Your task to perform on an android device: What's the weather like in Mumbai? Image 0: 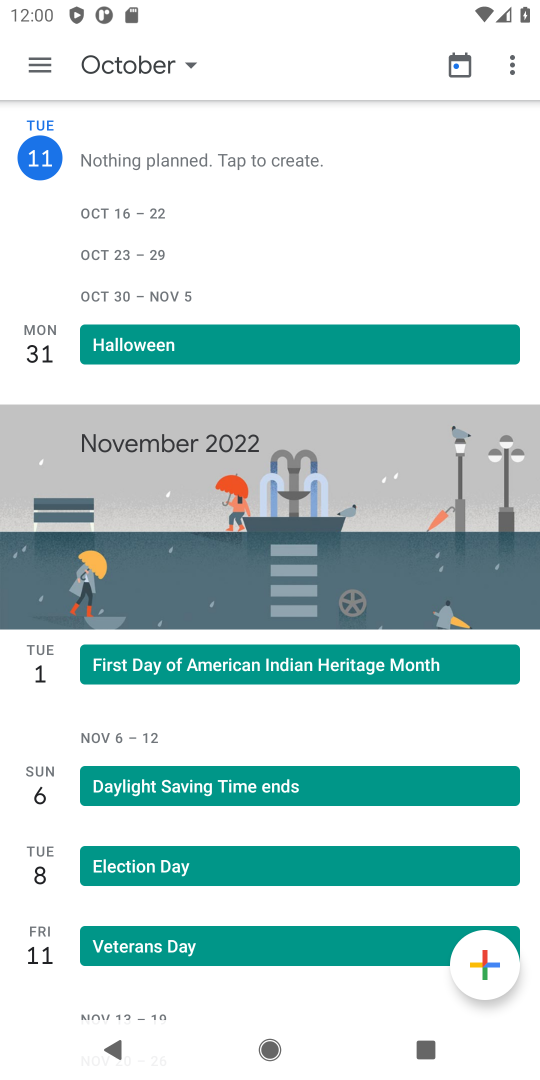
Step 0: press home button
Your task to perform on an android device: What's the weather like in Mumbai? Image 1: 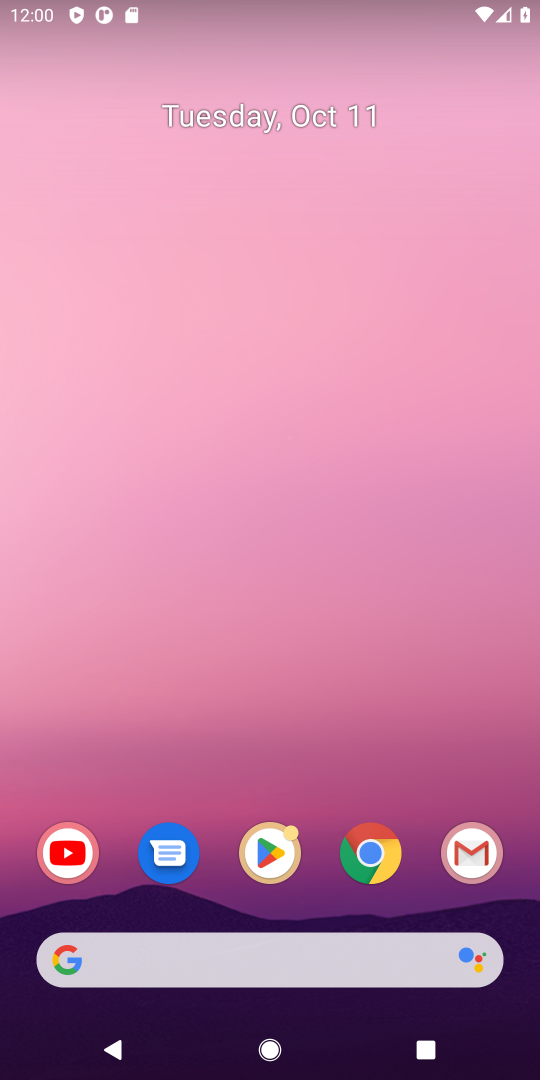
Step 1: drag from (287, 917) to (445, 136)
Your task to perform on an android device: What's the weather like in Mumbai? Image 2: 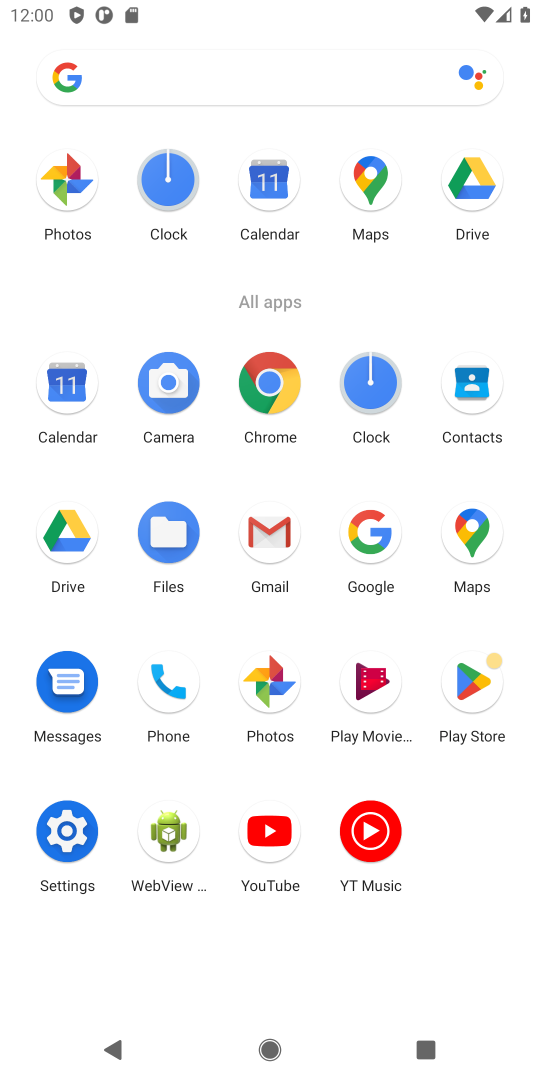
Step 2: click (248, 398)
Your task to perform on an android device: What's the weather like in Mumbai? Image 3: 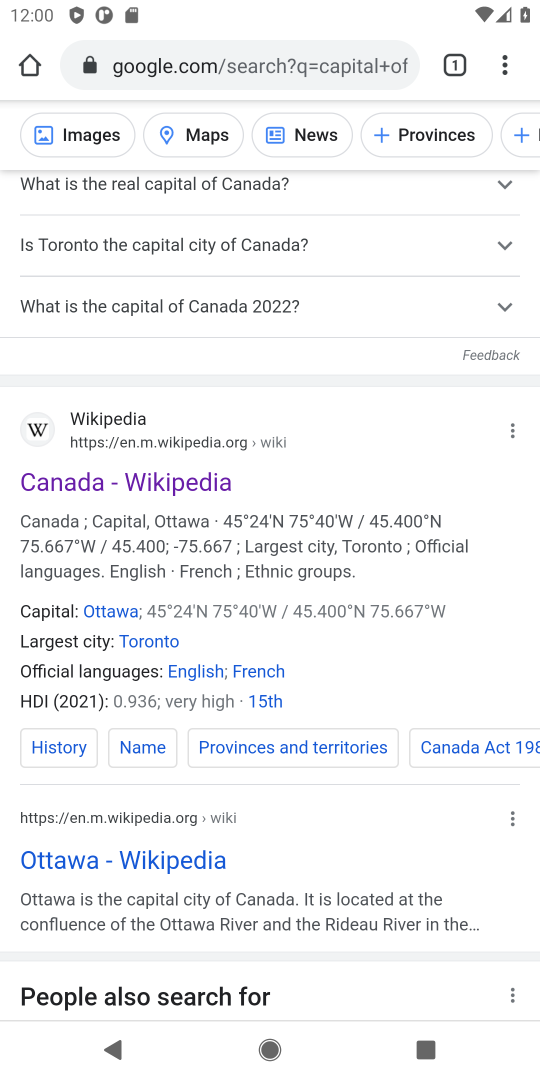
Step 3: click (256, 64)
Your task to perform on an android device: What's the weather like in Mumbai? Image 4: 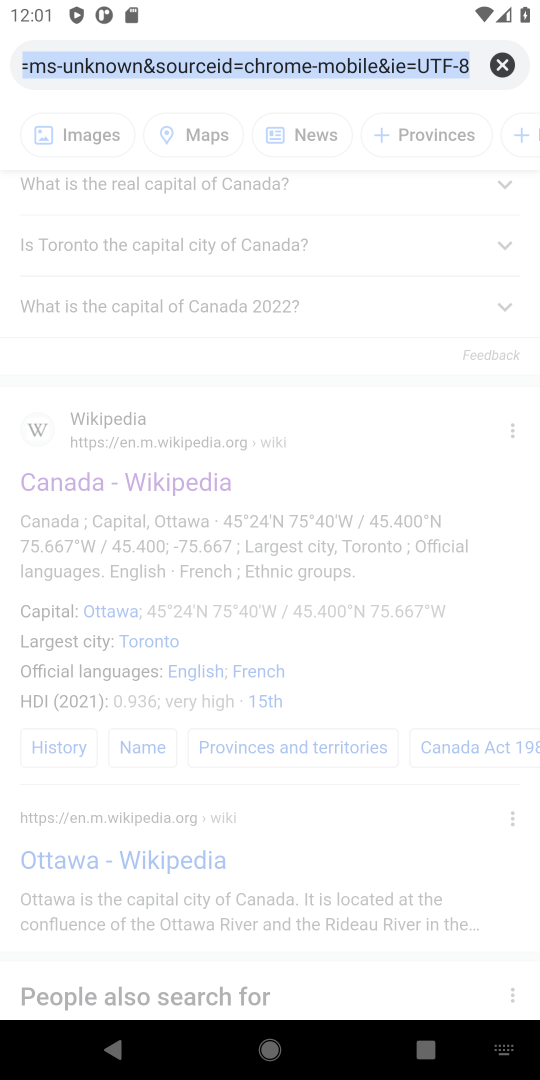
Step 4: type "What's the weather like in Mumbai?"
Your task to perform on an android device: What's the weather like in Mumbai? Image 5: 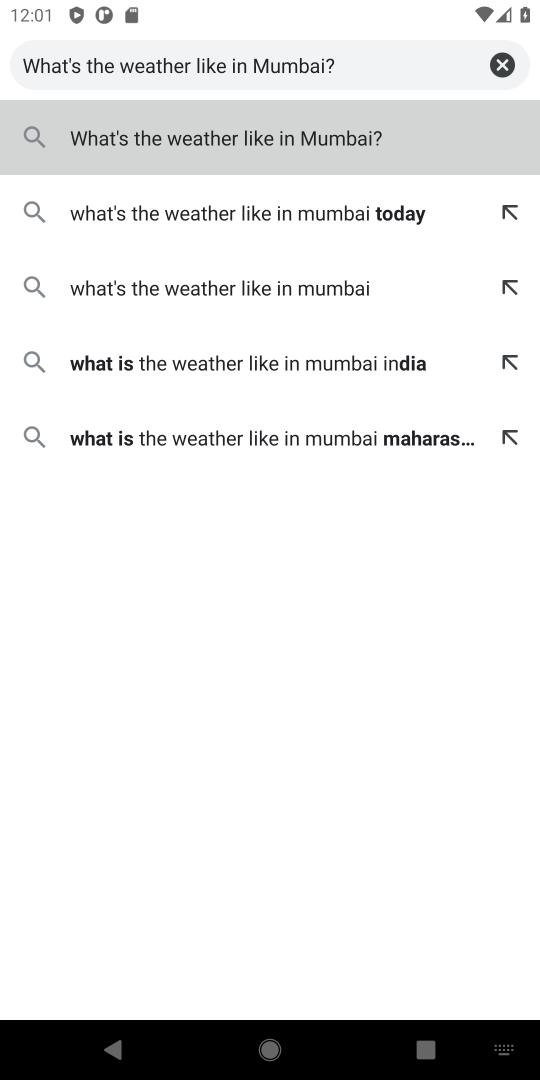
Step 5: type ""
Your task to perform on an android device: What's the weather like in Mumbai? Image 6: 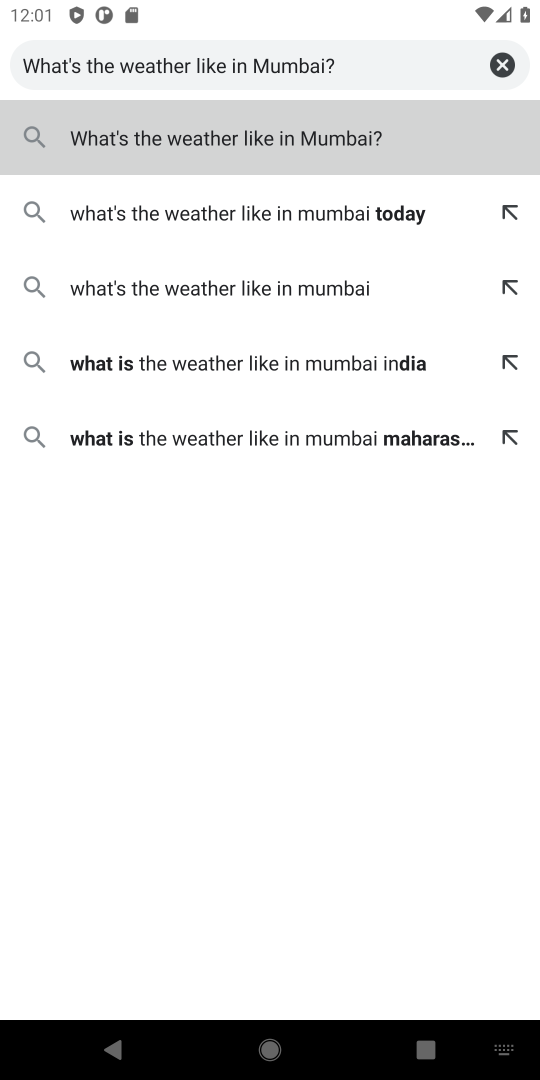
Step 6: press enter
Your task to perform on an android device: What's the weather like in Mumbai? Image 7: 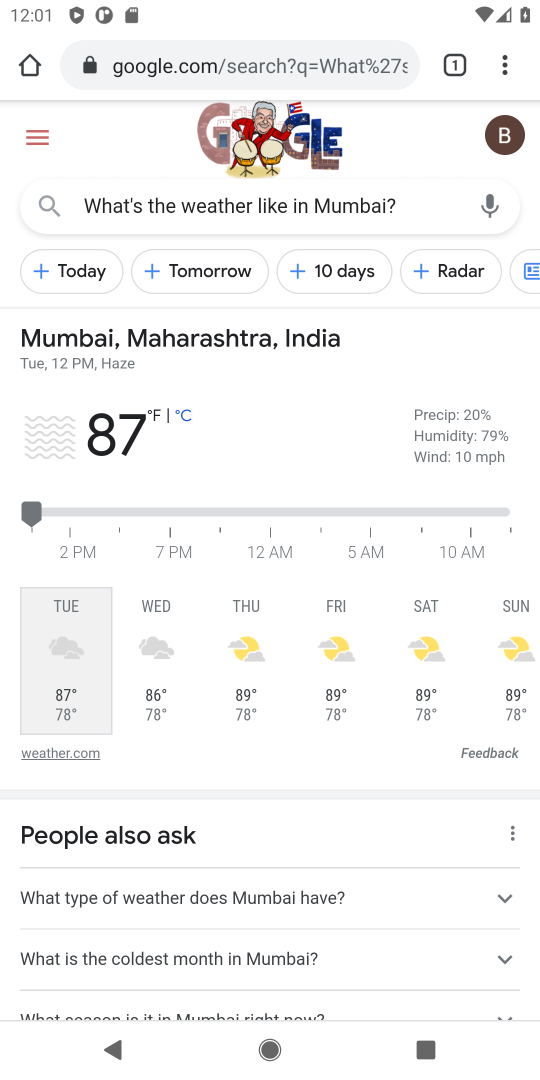
Step 7: click (32, 522)
Your task to perform on an android device: What's the weather like in Mumbai? Image 8: 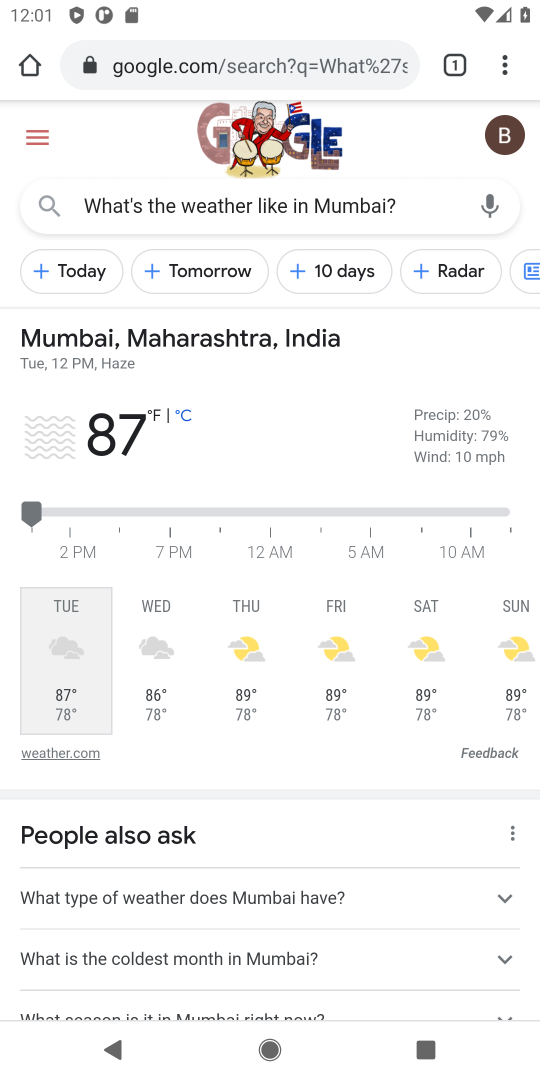
Step 8: click (179, 672)
Your task to perform on an android device: What's the weather like in Mumbai? Image 9: 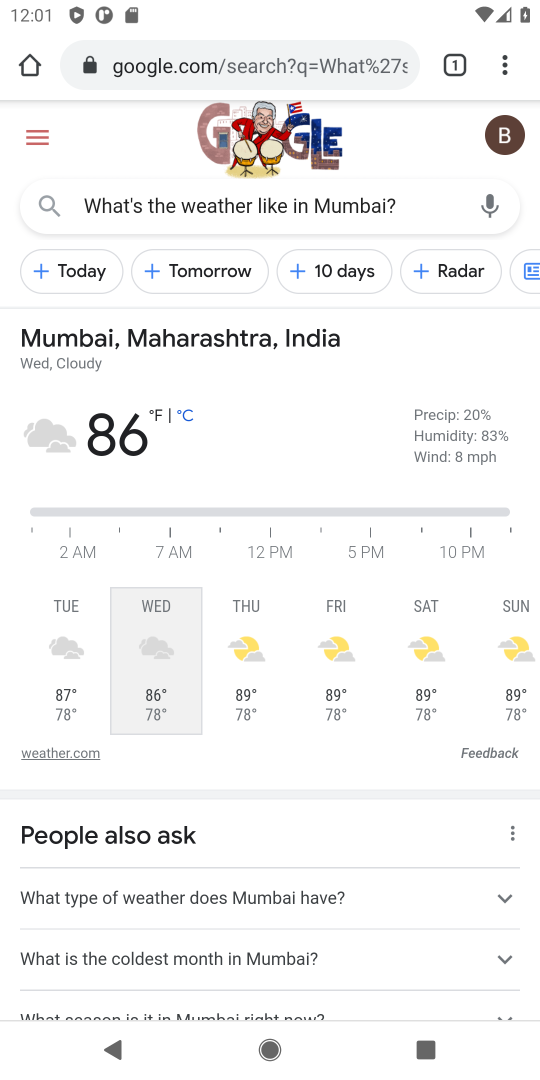
Step 9: click (248, 632)
Your task to perform on an android device: What's the weather like in Mumbai? Image 10: 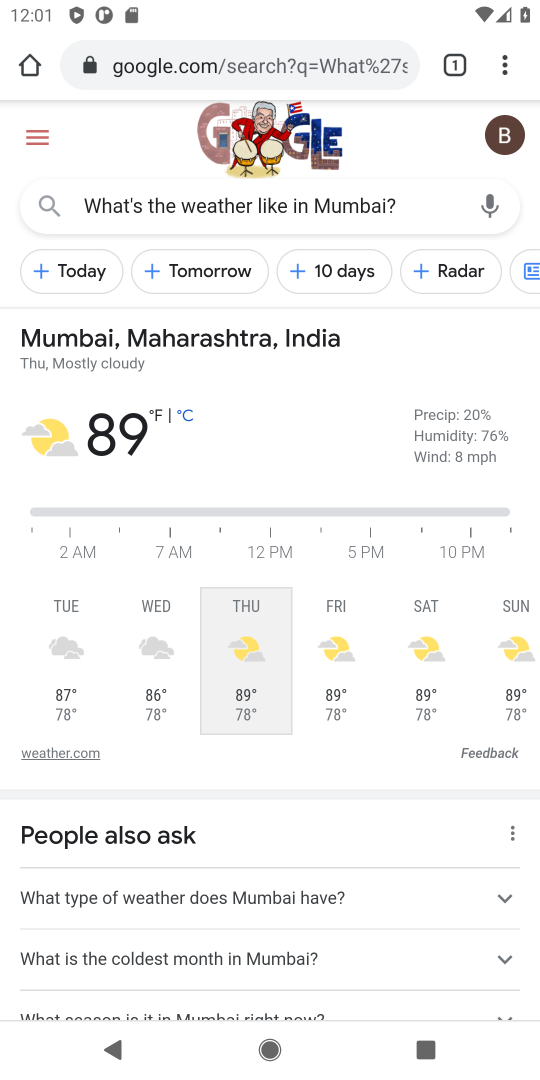
Step 10: click (79, 655)
Your task to perform on an android device: What's the weather like in Mumbai? Image 11: 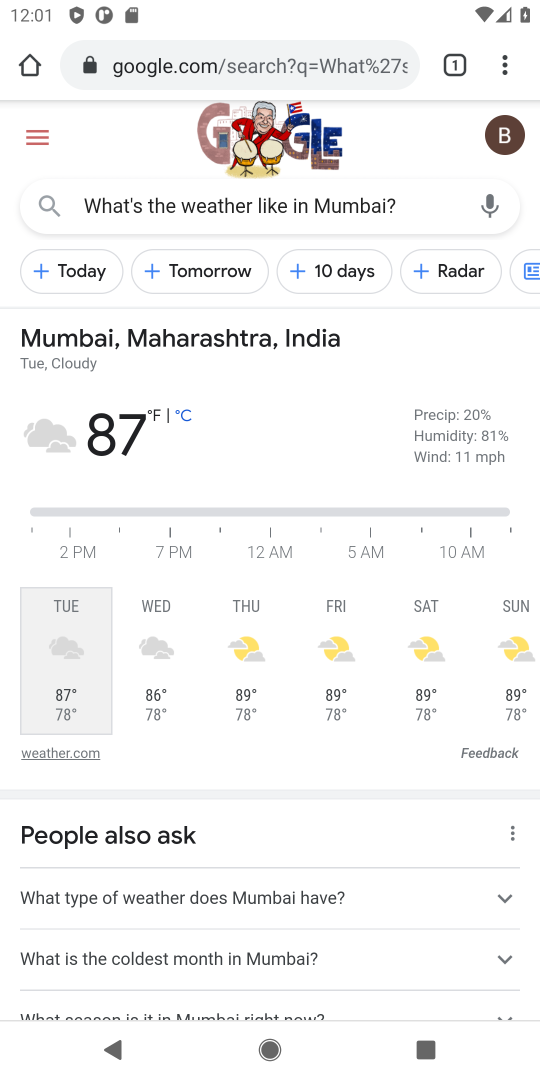
Step 11: drag from (148, 908) to (215, 467)
Your task to perform on an android device: What's the weather like in Mumbai? Image 12: 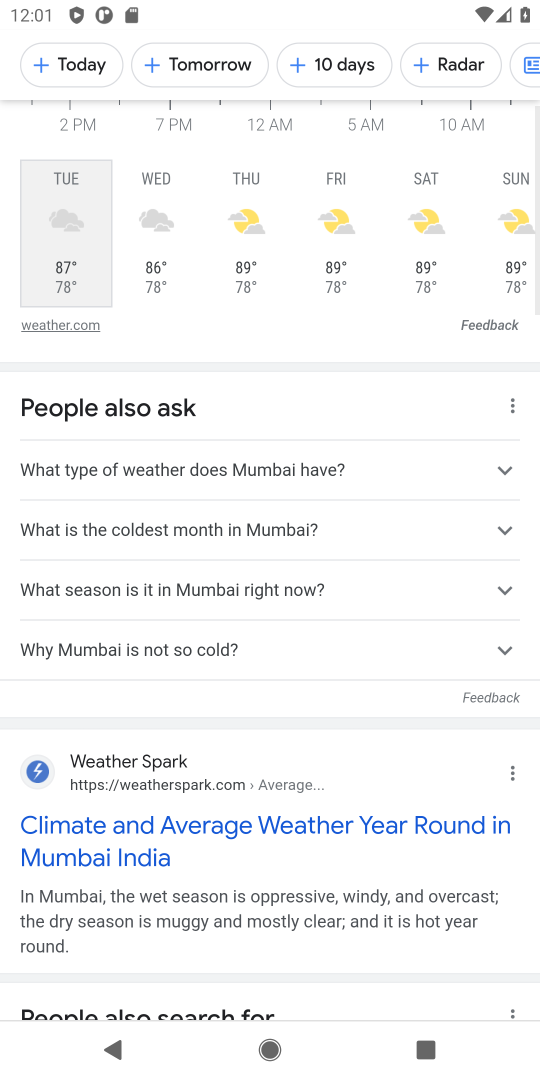
Step 12: drag from (353, 867) to (367, 435)
Your task to perform on an android device: What's the weather like in Mumbai? Image 13: 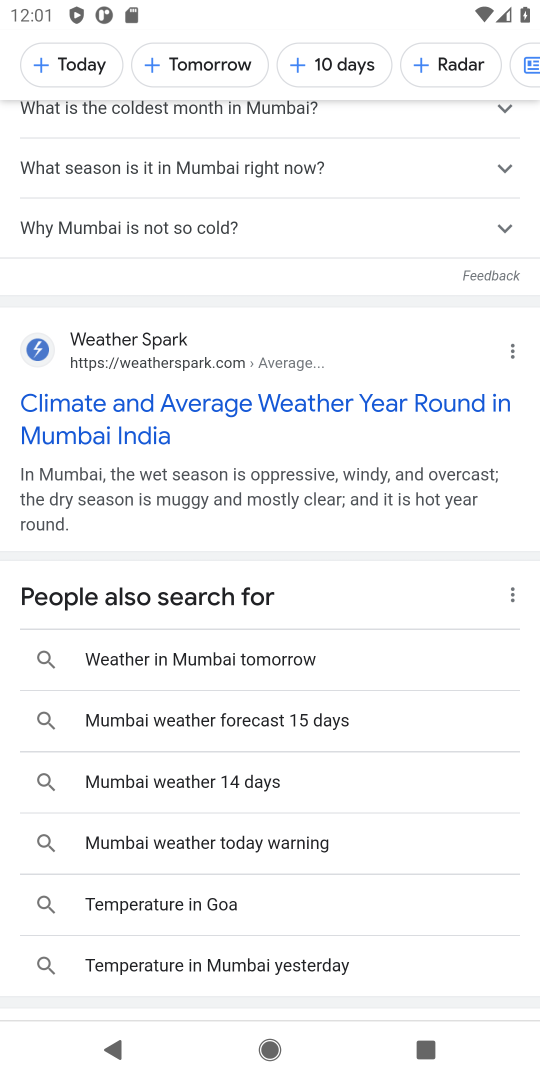
Step 13: drag from (324, 609) to (365, 282)
Your task to perform on an android device: What's the weather like in Mumbai? Image 14: 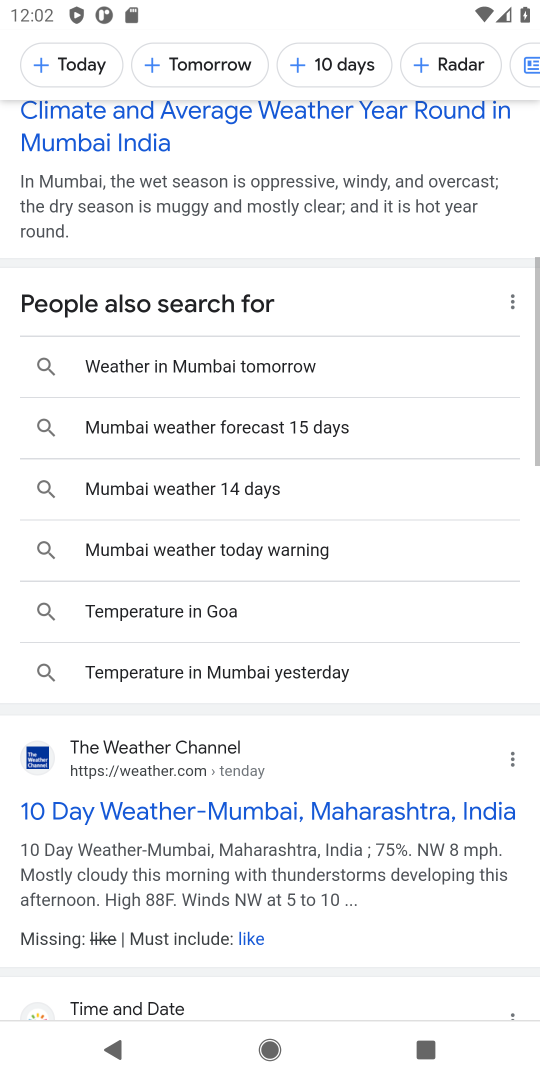
Step 14: drag from (401, 601) to (391, 346)
Your task to perform on an android device: What's the weather like in Mumbai? Image 15: 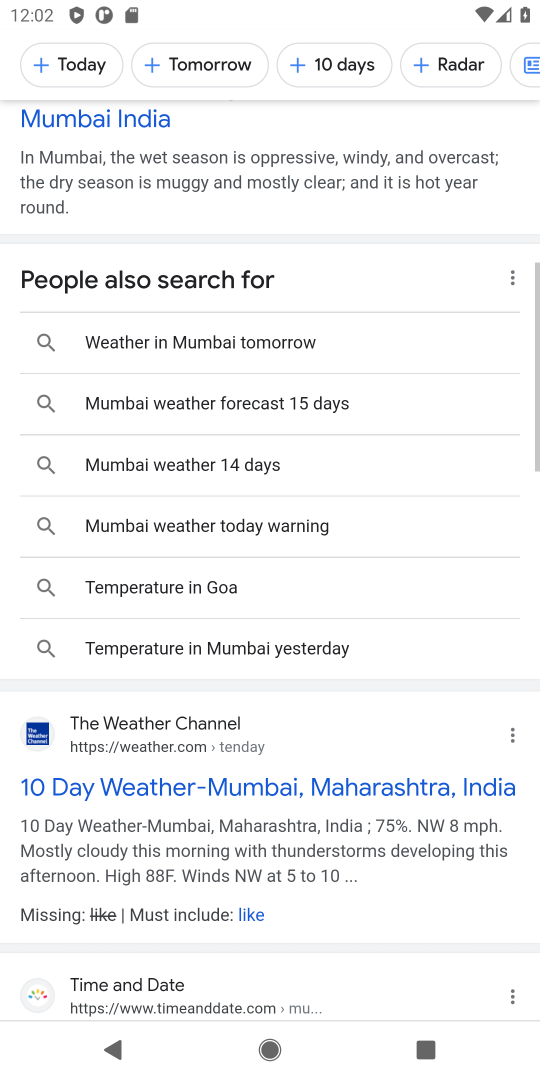
Step 15: drag from (351, 909) to (362, 419)
Your task to perform on an android device: What's the weather like in Mumbai? Image 16: 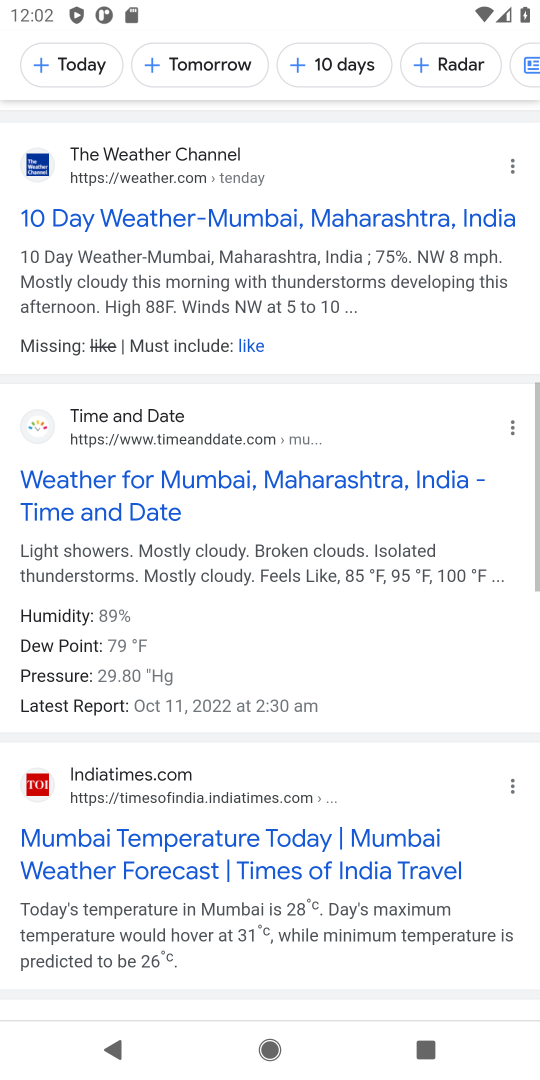
Step 16: drag from (326, 862) to (337, 439)
Your task to perform on an android device: What's the weather like in Mumbai? Image 17: 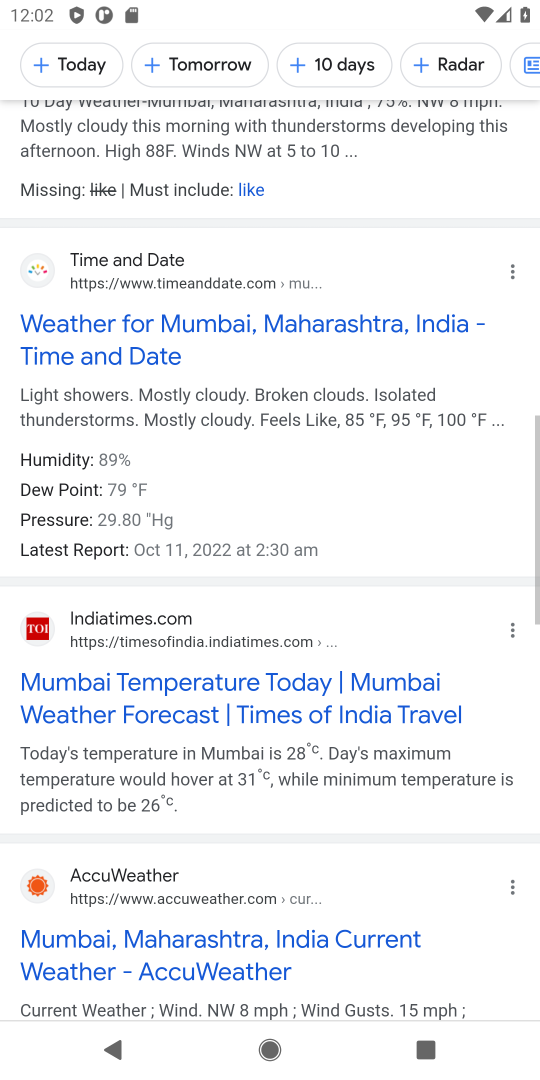
Step 17: drag from (272, 713) to (293, 510)
Your task to perform on an android device: What's the weather like in Mumbai? Image 18: 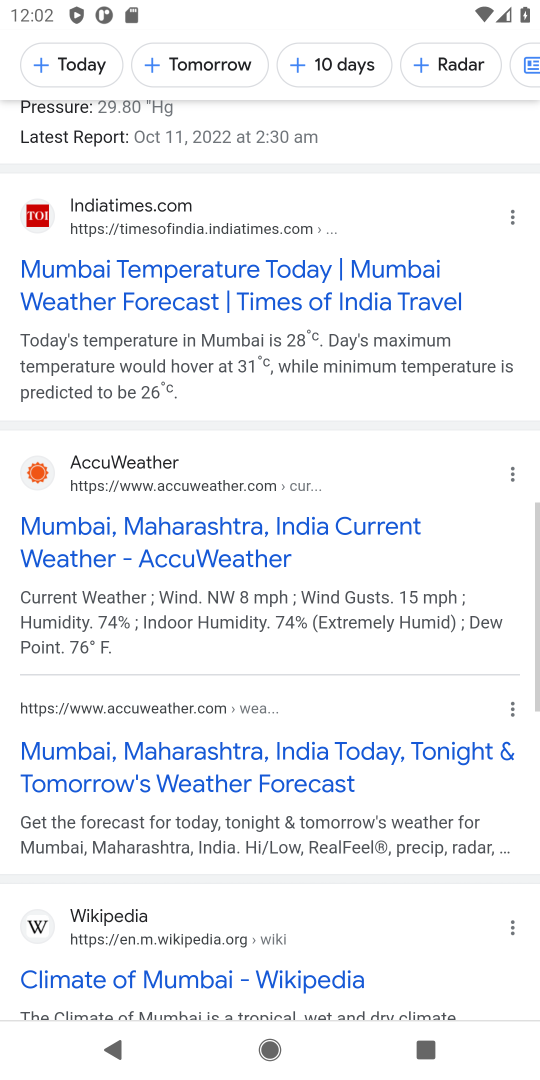
Step 18: drag from (317, 843) to (326, 399)
Your task to perform on an android device: What's the weather like in Mumbai? Image 19: 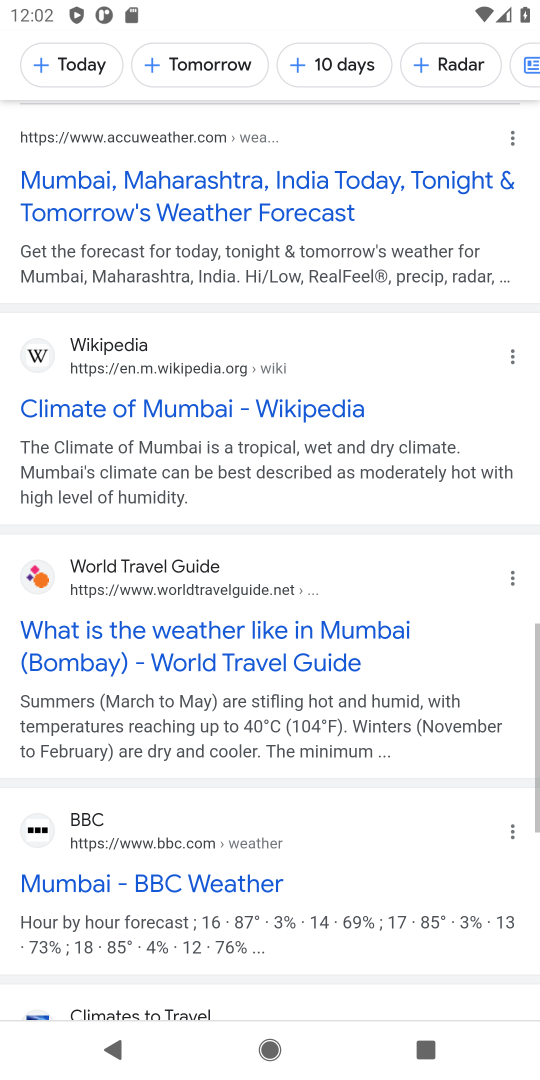
Step 19: drag from (319, 885) to (295, 367)
Your task to perform on an android device: What's the weather like in Mumbai? Image 20: 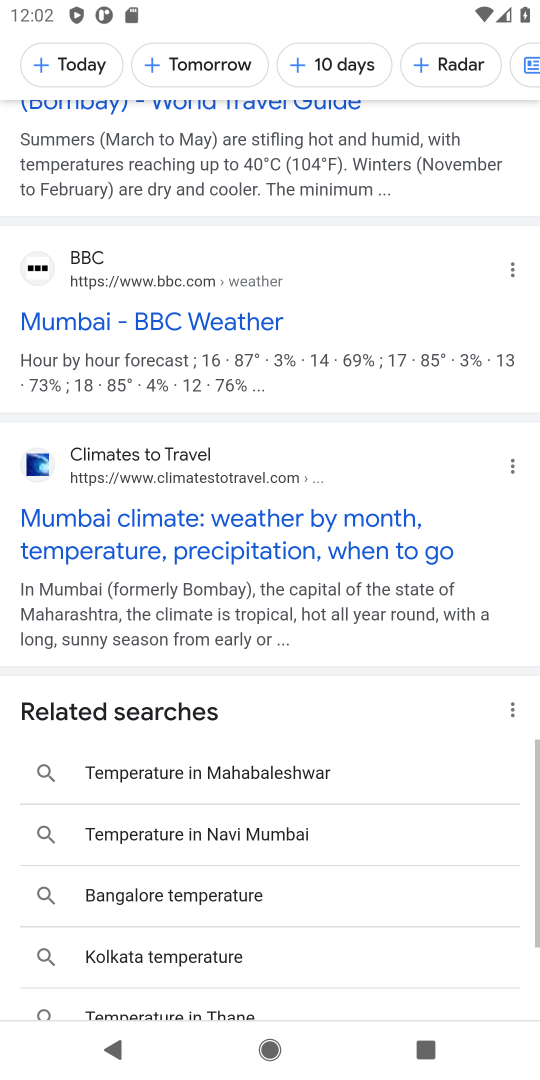
Step 20: click (312, 293)
Your task to perform on an android device: What's the weather like in Mumbai? Image 21: 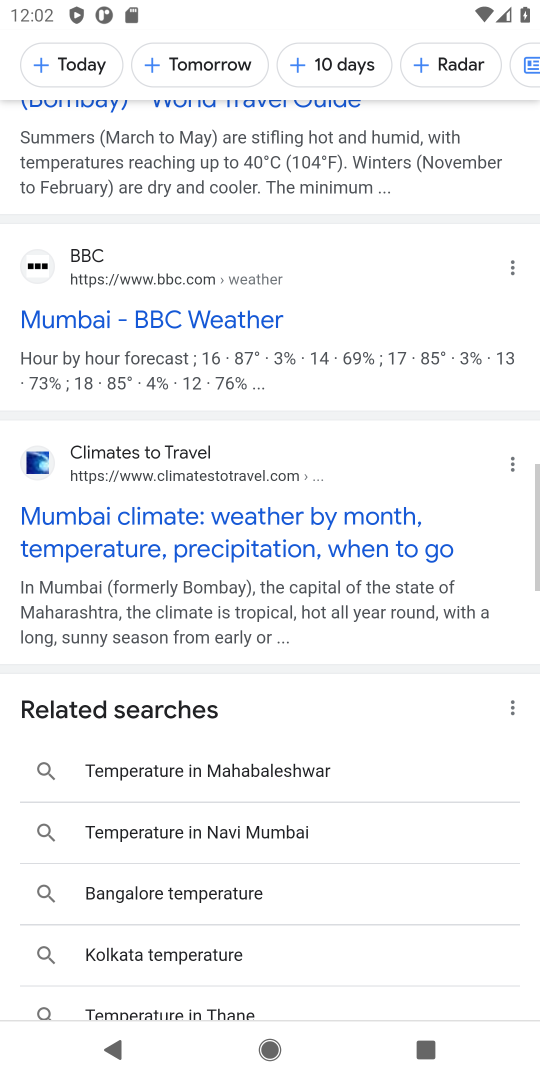
Step 21: drag from (287, 568) to (281, 337)
Your task to perform on an android device: What's the weather like in Mumbai? Image 22: 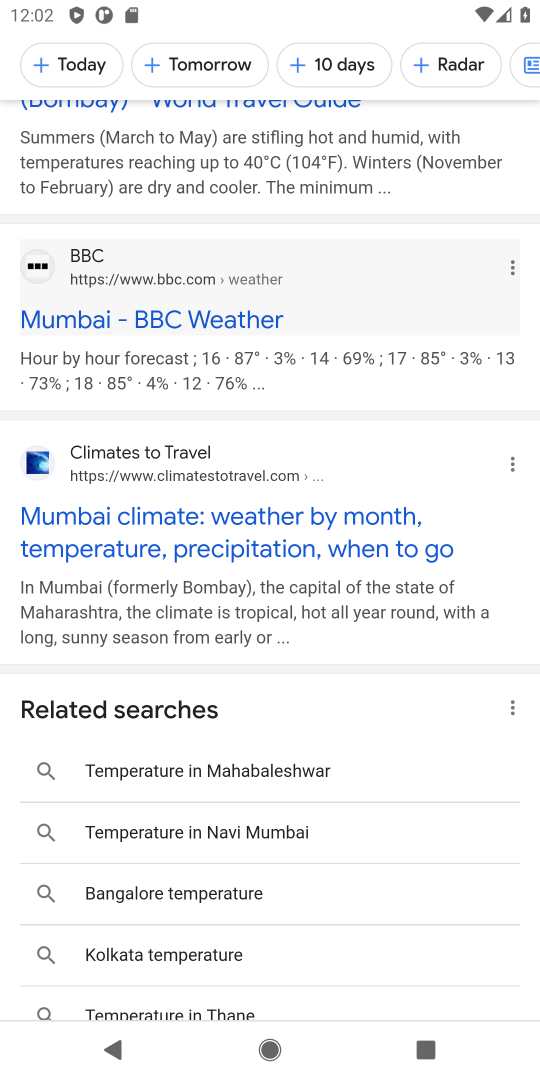
Step 22: drag from (304, 805) to (341, 284)
Your task to perform on an android device: What's the weather like in Mumbai? Image 23: 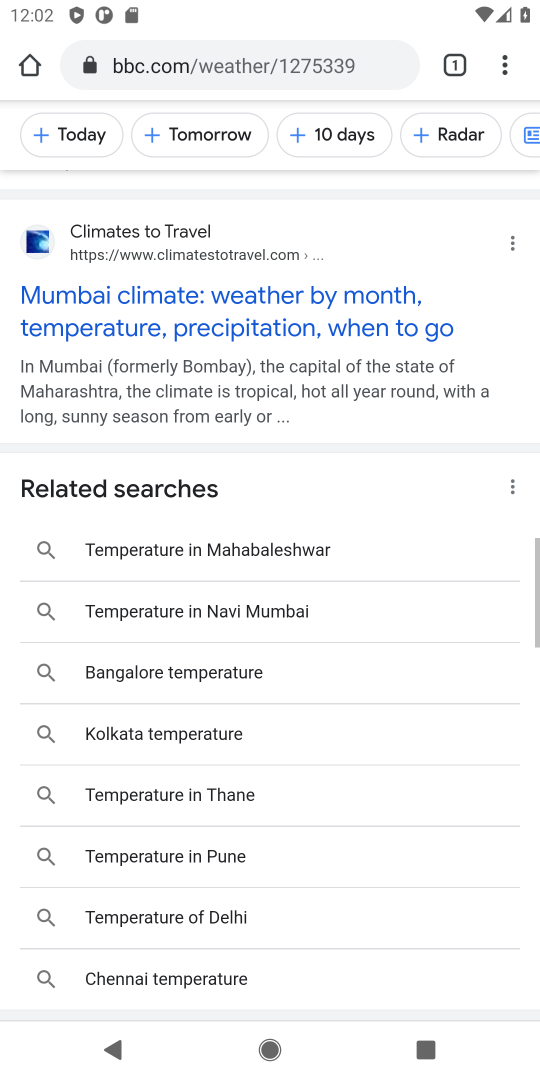
Step 23: drag from (267, 473) to (263, 405)
Your task to perform on an android device: What's the weather like in Mumbai? Image 24: 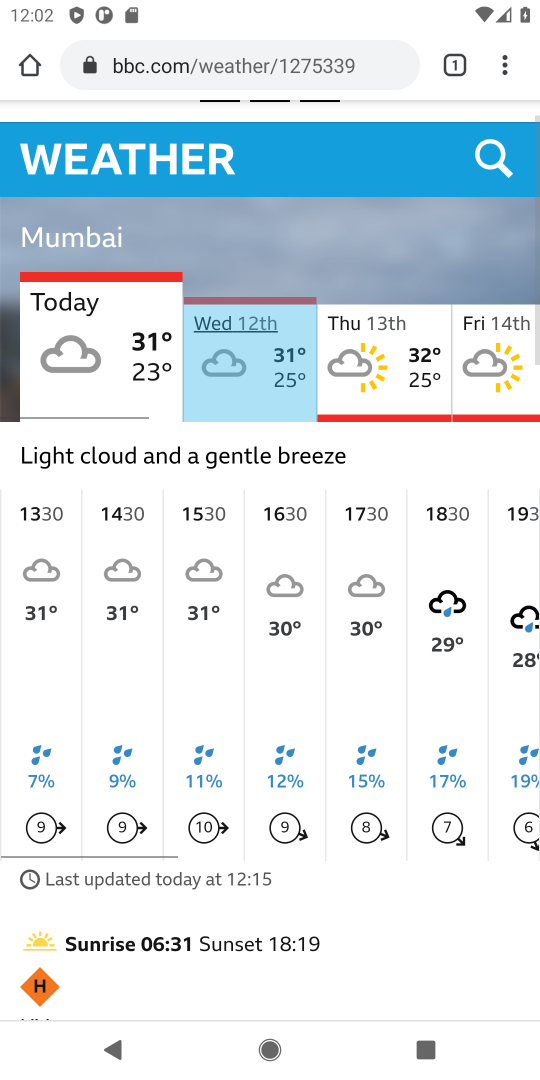
Step 24: click (238, 302)
Your task to perform on an android device: What's the weather like in Mumbai? Image 25: 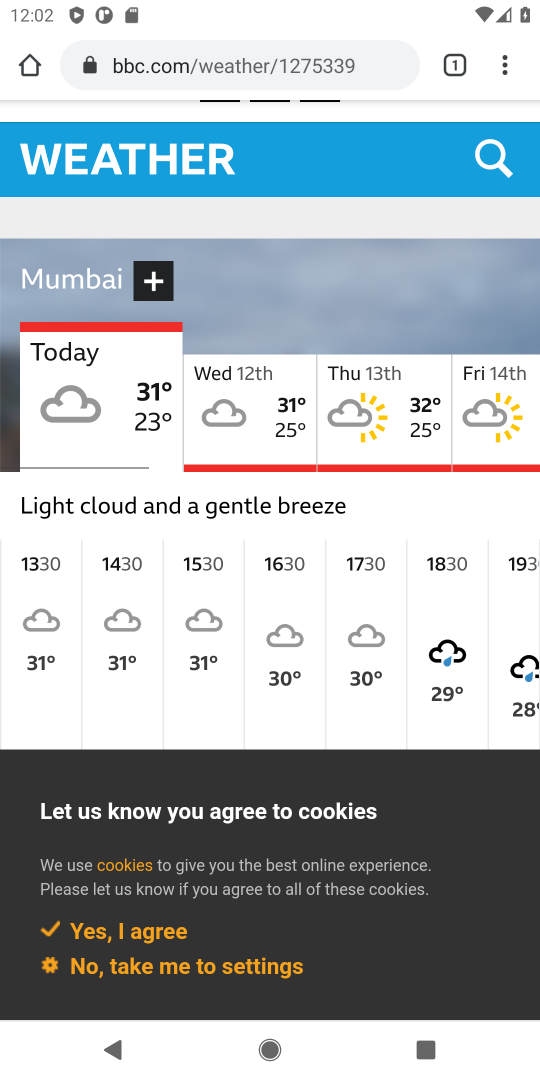
Step 25: drag from (337, 711) to (351, 494)
Your task to perform on an android device: What's the weather like in Mumbai? Image 26: 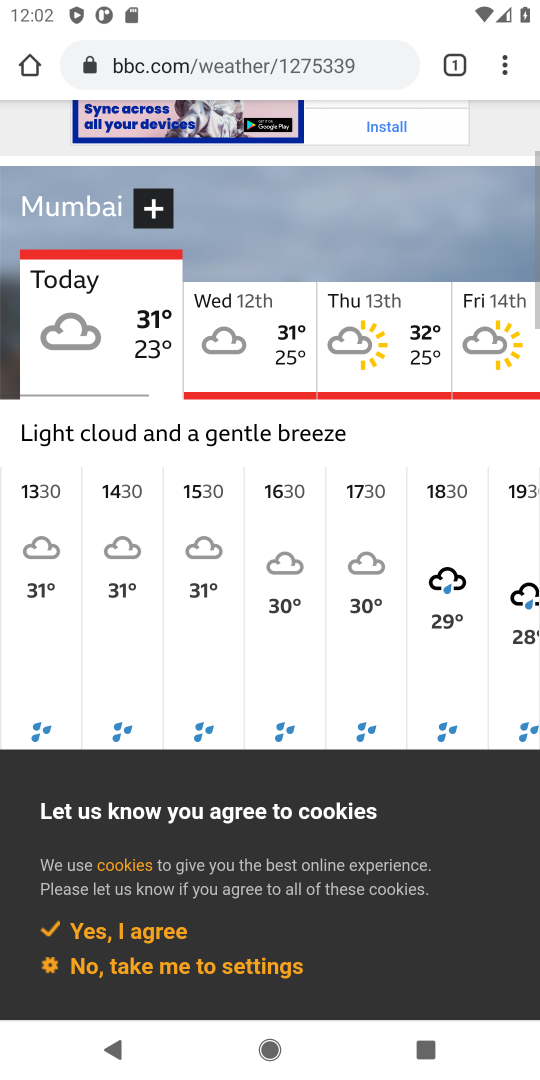
Step 26: click (153, 962)
Your task to perform on an android device: What's the weather like in Mumbai? Image 27: 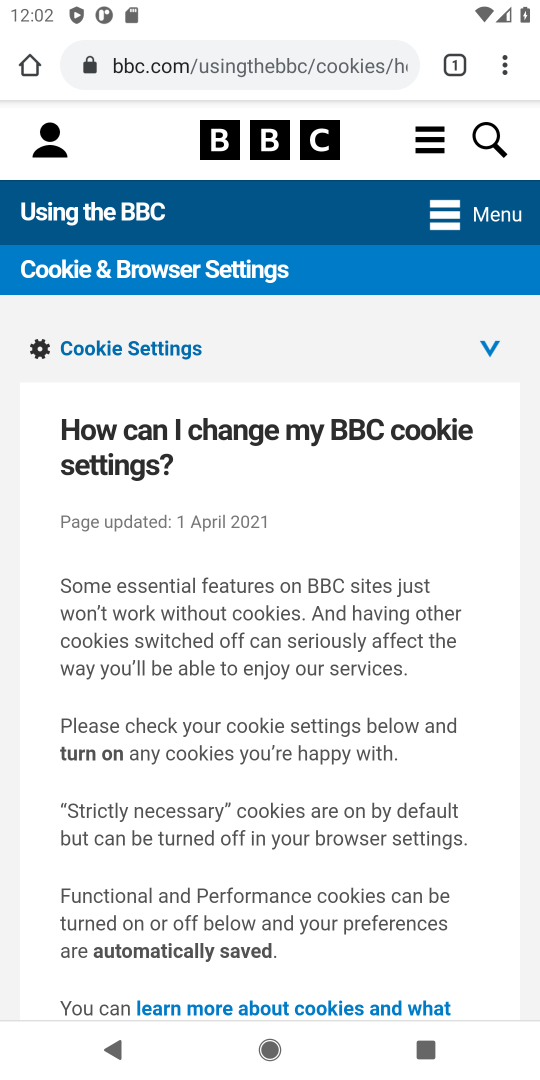
Step 27: drag from (283, 878) to (323, 437)
Your task to perform on an android device: What's the weather like in Mumbai? Image 28: 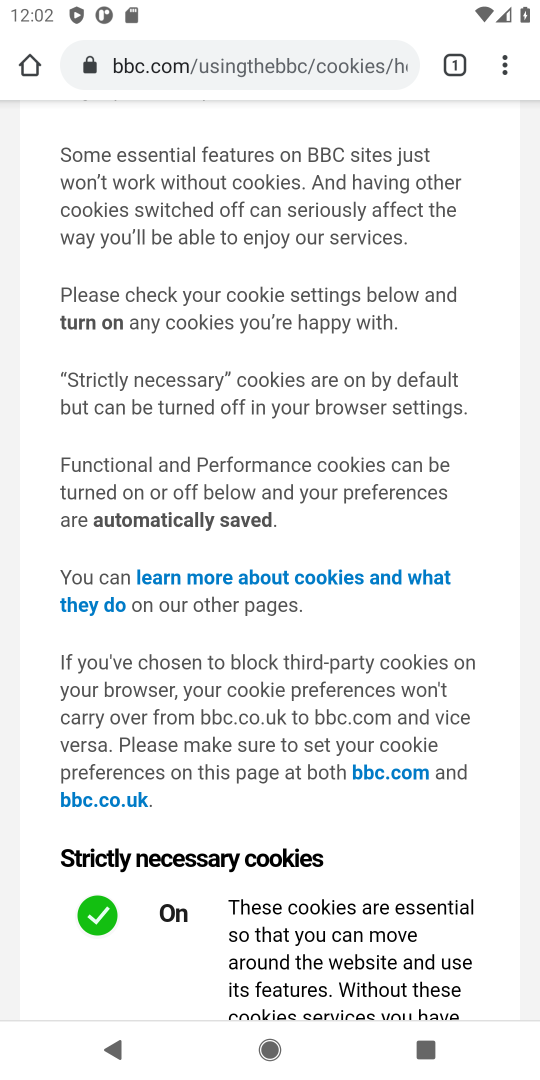
Step 28: drag from (430, 798) to (428, 579)
Your task to perform on an android device: What's the weather like in Mumbai? Image 29: 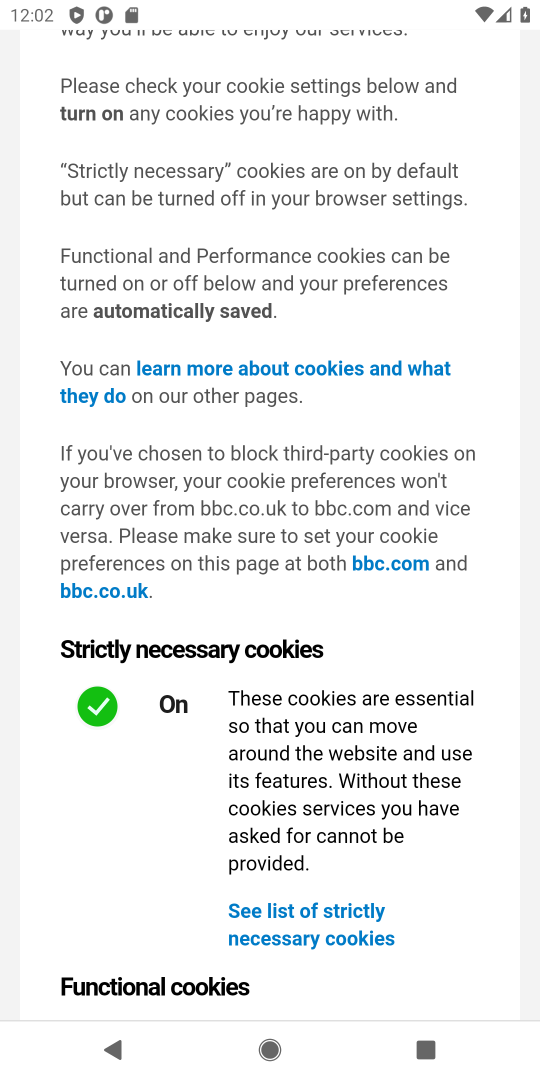
Step 29: drag from (402, 876) to (419, 455)
Your task to perform on an android device: What's the weather like in Mumbai? Image 30: 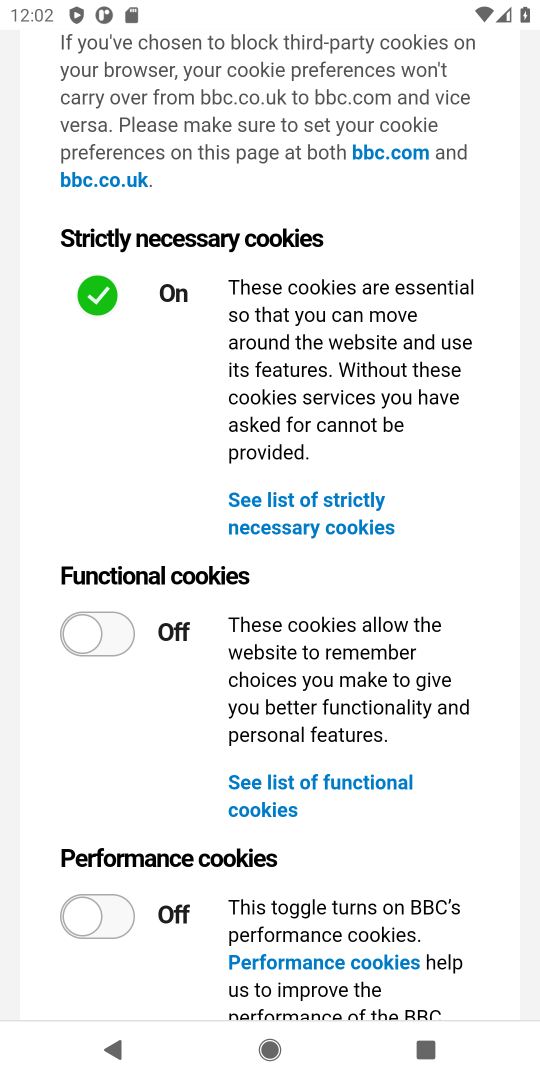
Step 30: drag from (400, 871) to (328, 391)
Your task to perform on an android device: What's the weather like in Mumbai? Image 31: 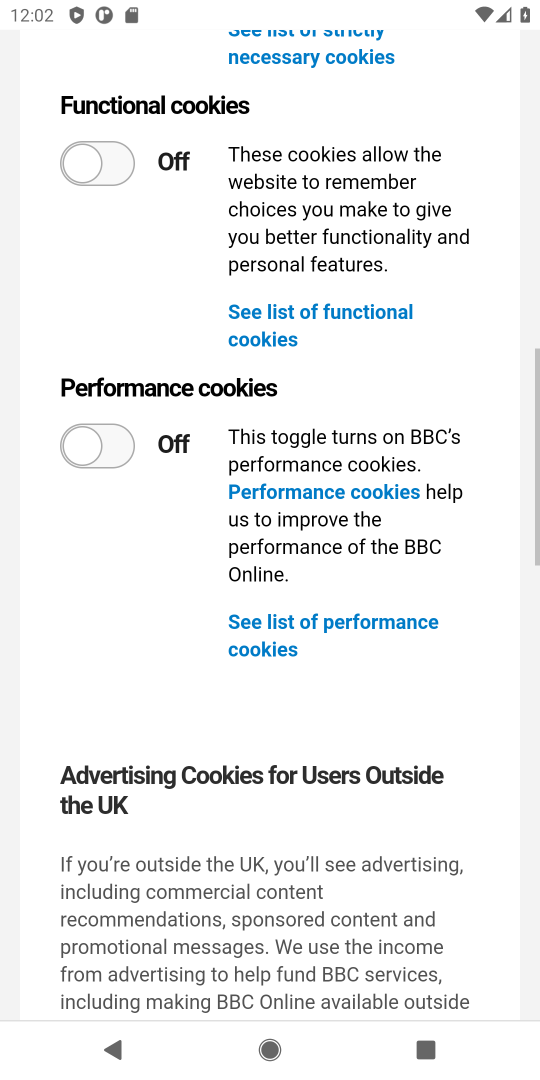
Step 31: drag from (382, 605) to (387, 406)
Your task to perform on an android device: What's the weather like in Mumbai? Image 32: 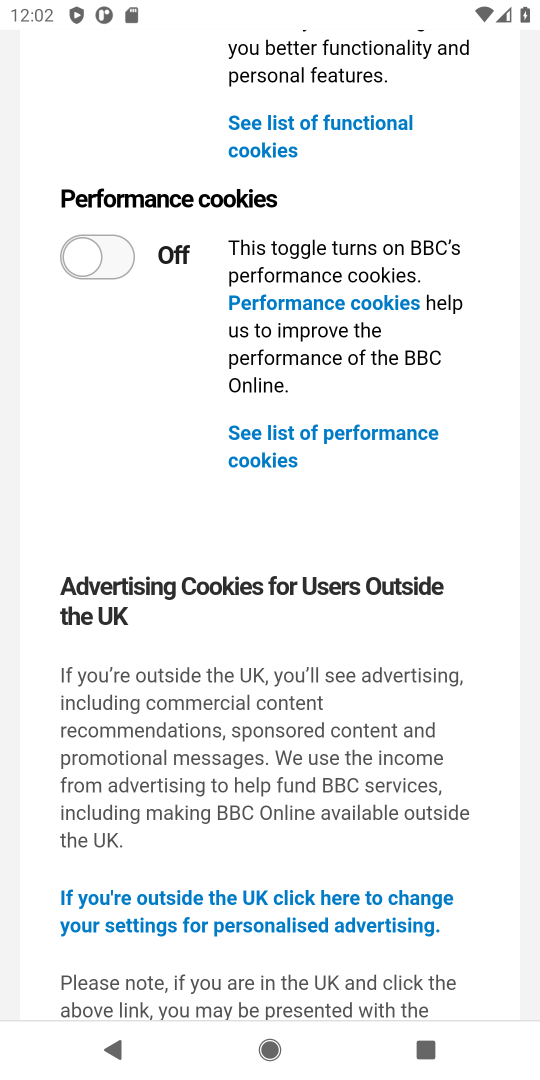
Step 32: drag from (388, 858) to (326, 39)
Your task to perform on an android device: What's the weather like in Mumbai? Image 33: 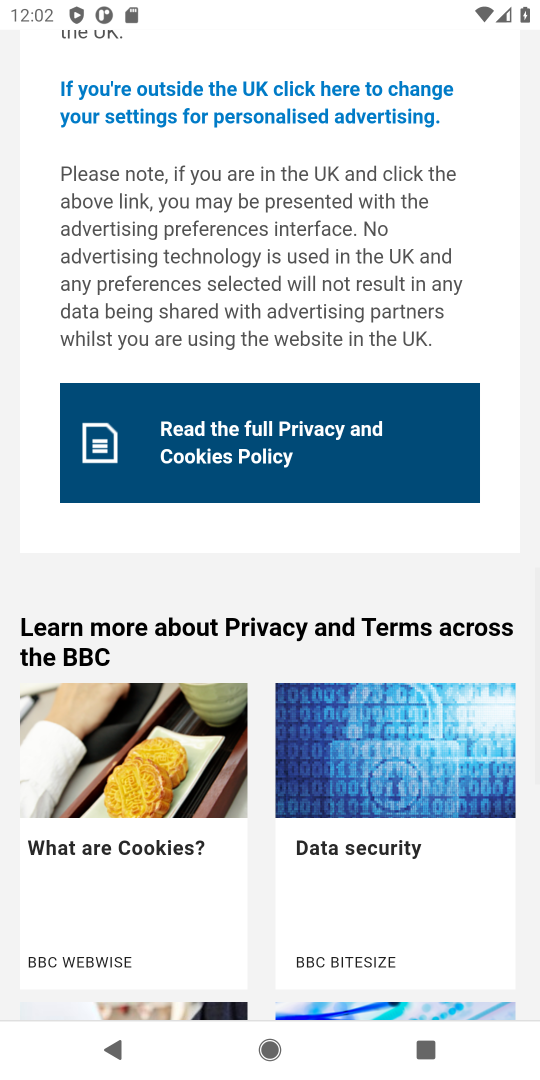
Step 33: drag from (403, 834) to (324, 290)
Your task to perform on an android device: What's the weather like in Mumbai? Image 34: 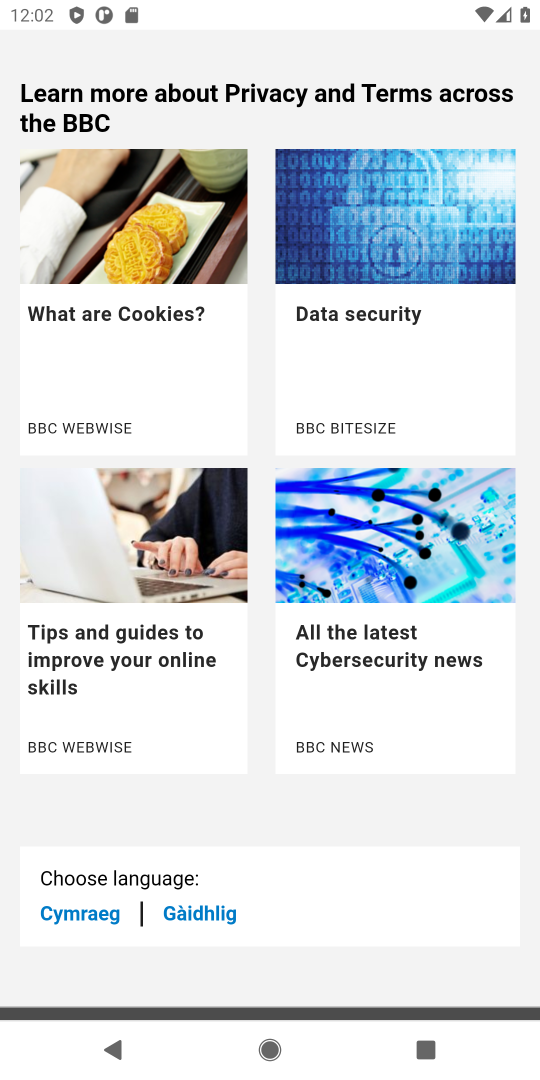
Step 34: press back button
Your task to perform on an android device: What's the weather like in Mumbai? Image 35: 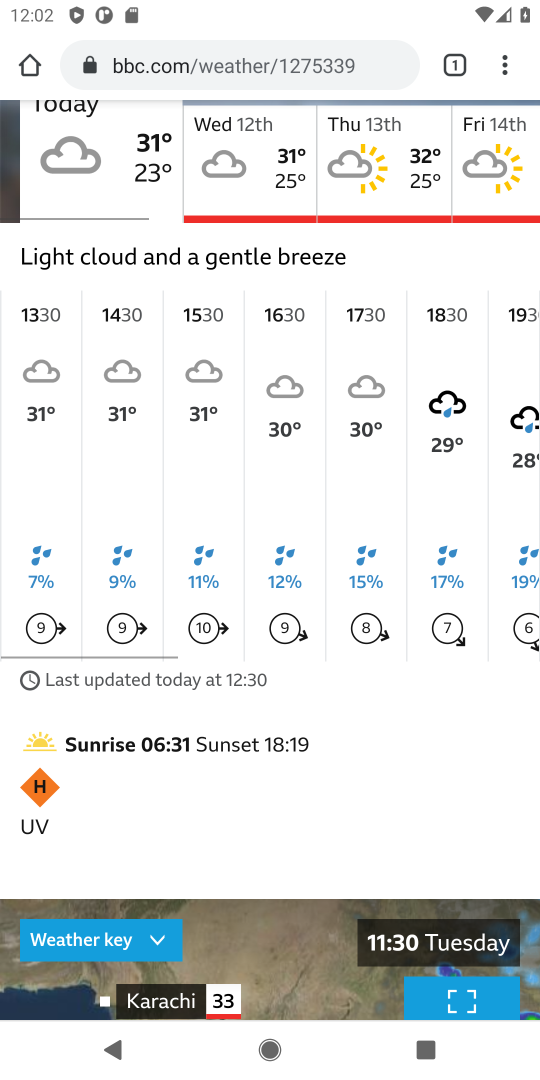
Step 35: click (356, 202)
Your task to perform on an android device: What's the weather like in Mumbai? Image 36: 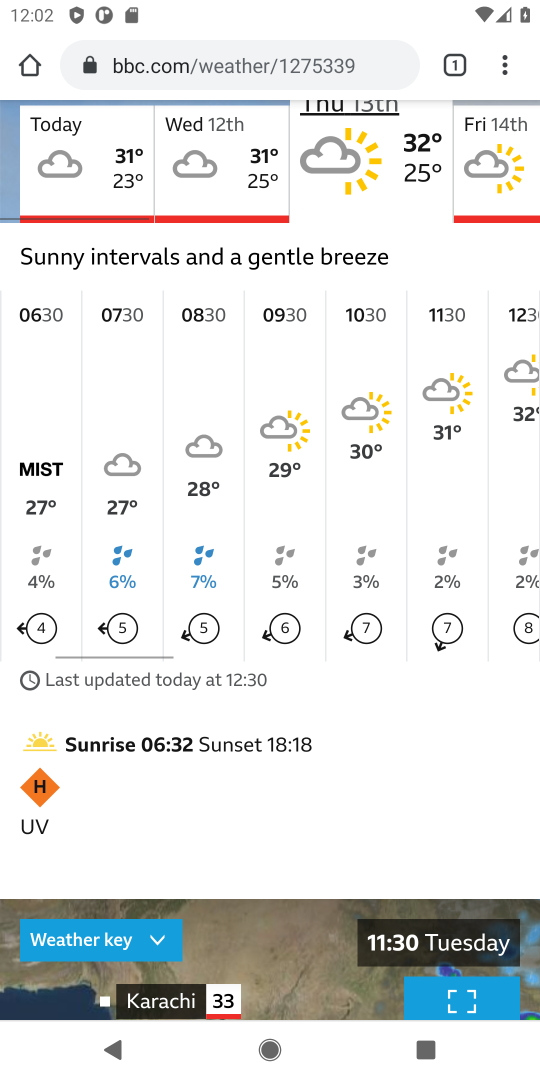
Step 36: press back button
Your task to perform on an android device: What's the weather like in Mumbai? Image 37: 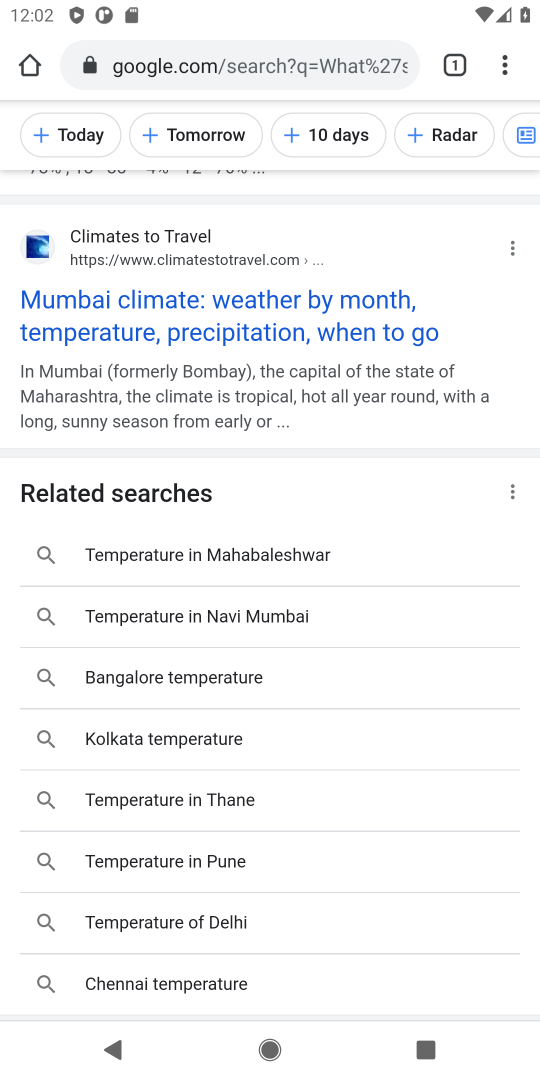
Step 37: click (265, 333)
Your task to perform on an android device: What's the weather like in Mumbai? Image 38: 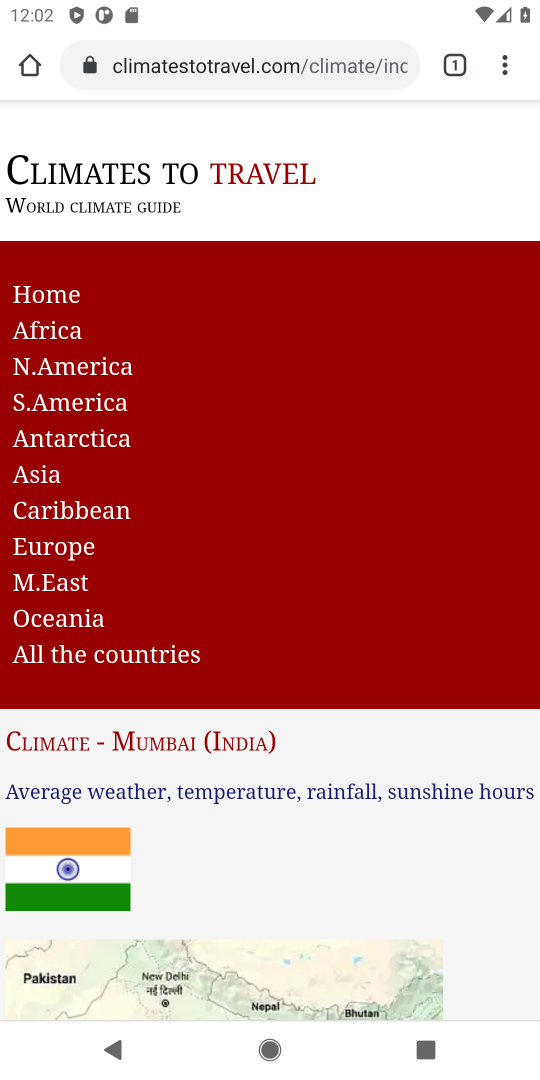
Step 38: drag from (390, 641) to (369, 239)
Your task to perform on an android device: What's the weather like in Mumbai? Image 39: 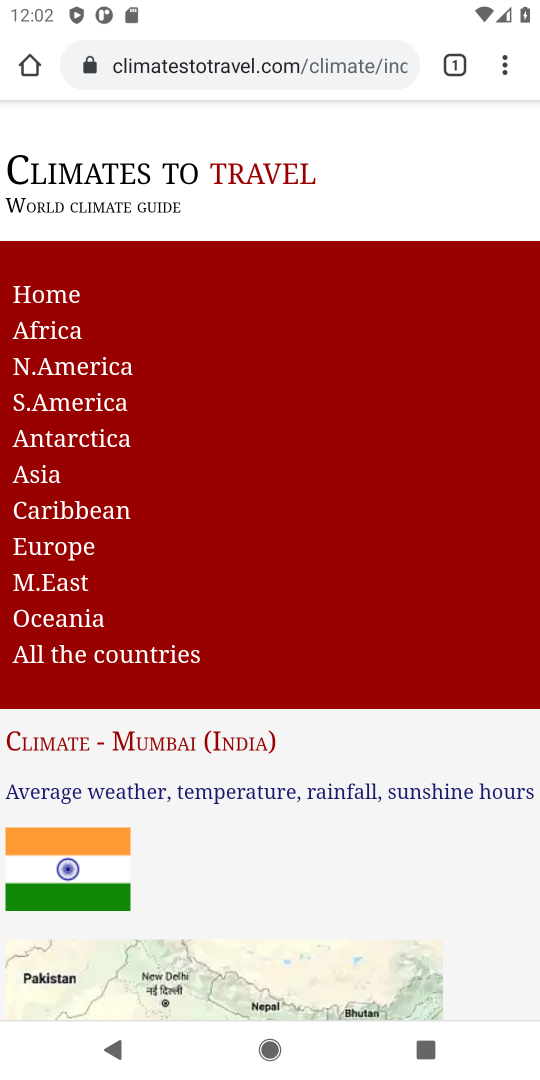
Step 39: drag from (349, 754) to (366, 423)
Your task to perform on an android device: What's the weather like in Mumbai? Image 40: 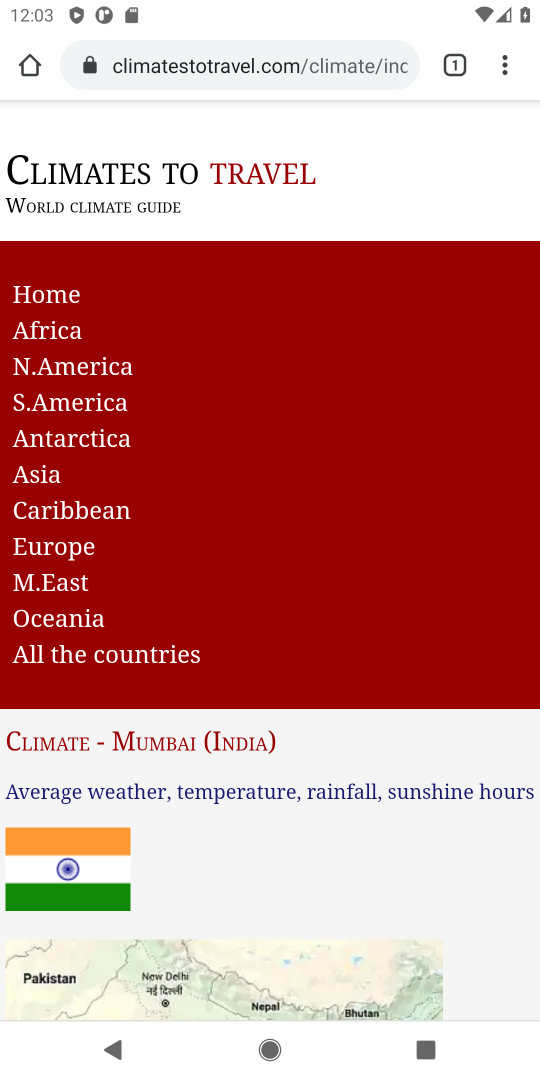
Step 40: drag from (421, 863) to (357, 417)
Your task to perform on an android device: What's the weather like in Mumbai? Image 41: 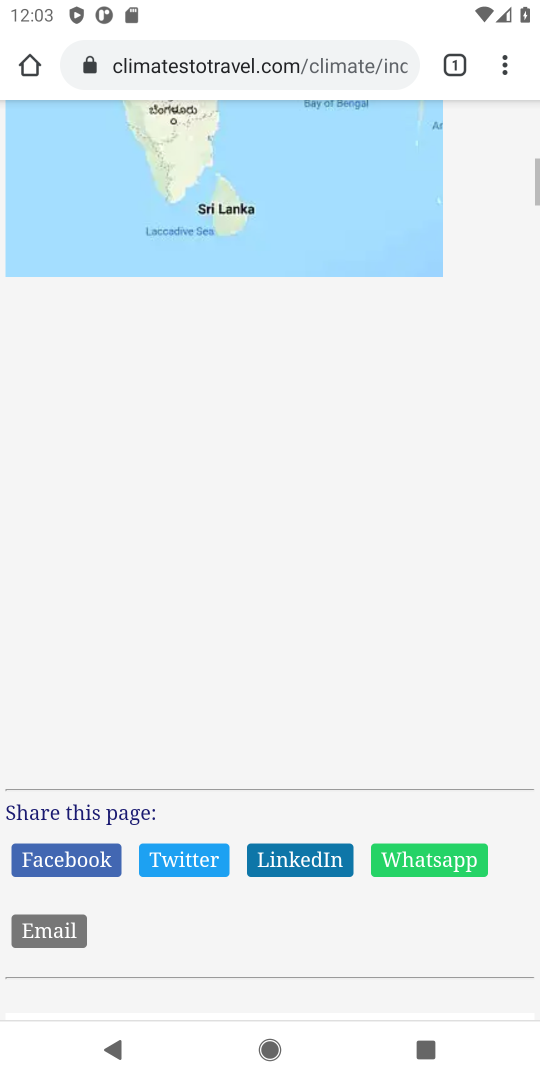
Step 41: drag from (459, 885) to (508, 360)
Your task to perform on an android device: What's the weather like in Mumbai? Image 42: 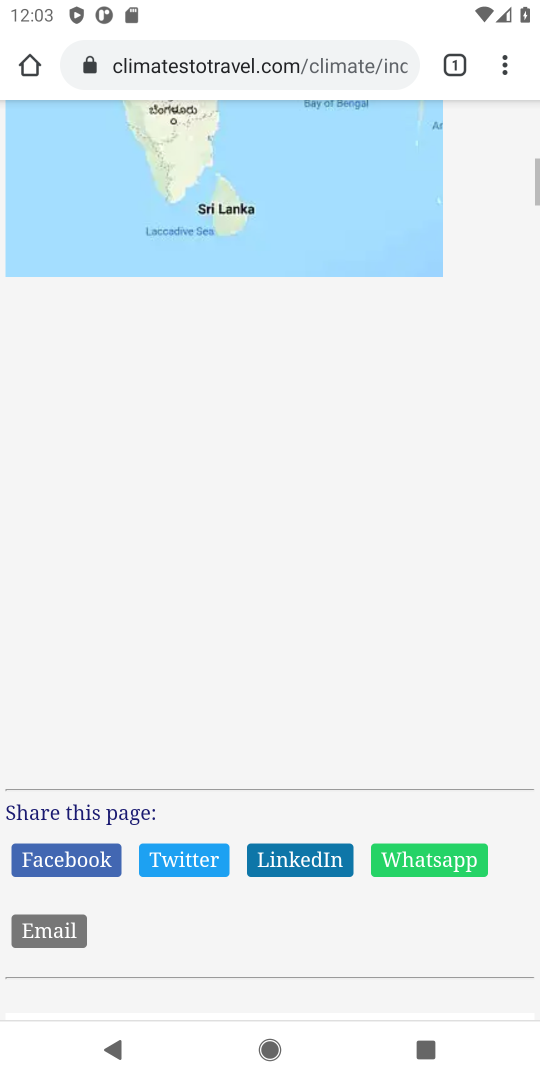
Step 42: drag from (439, 713) to (394, 282)
Your task to perform on an android device: What's the weather like in Mumbai? Image 43: 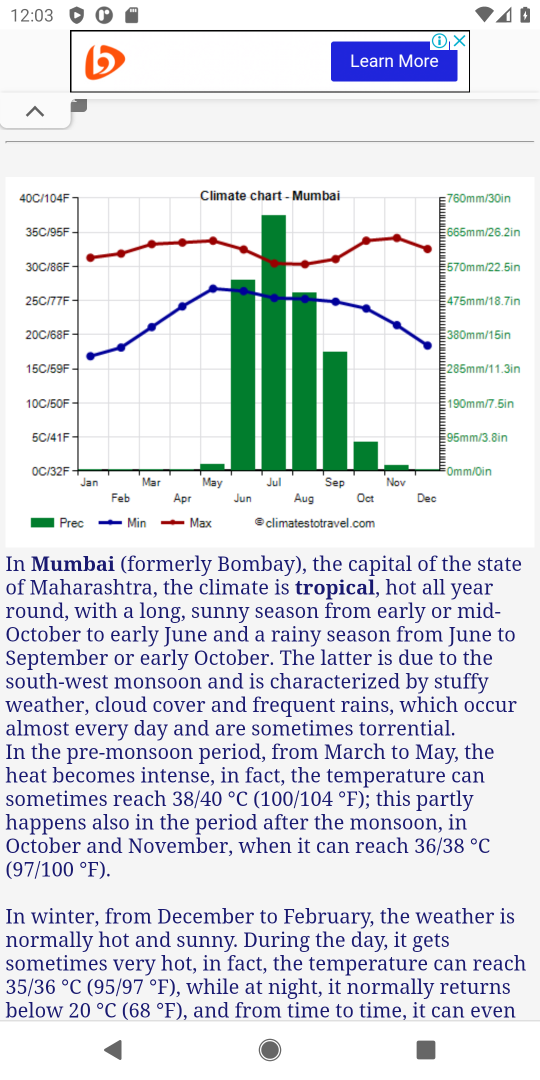
Step 43: drag from (384, 675) to (353, 168)
Your task to perform on an android device: What's the weather like in Mumbai? Image 44: 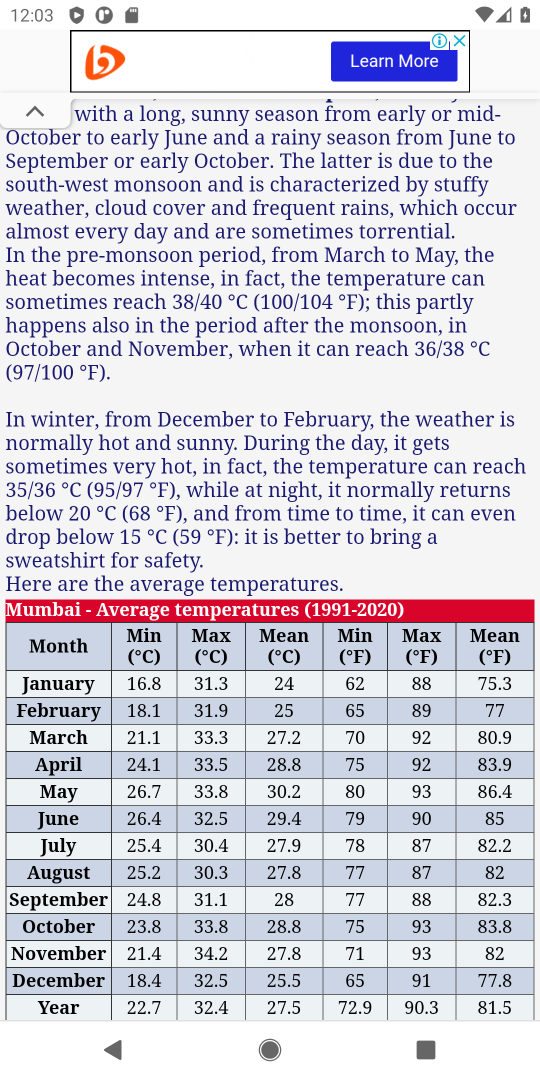
Step 44: drag from (433, 647) to (439, 211)
Your task to perform on an android device: What's the weather like in Mumbai? Image 45: 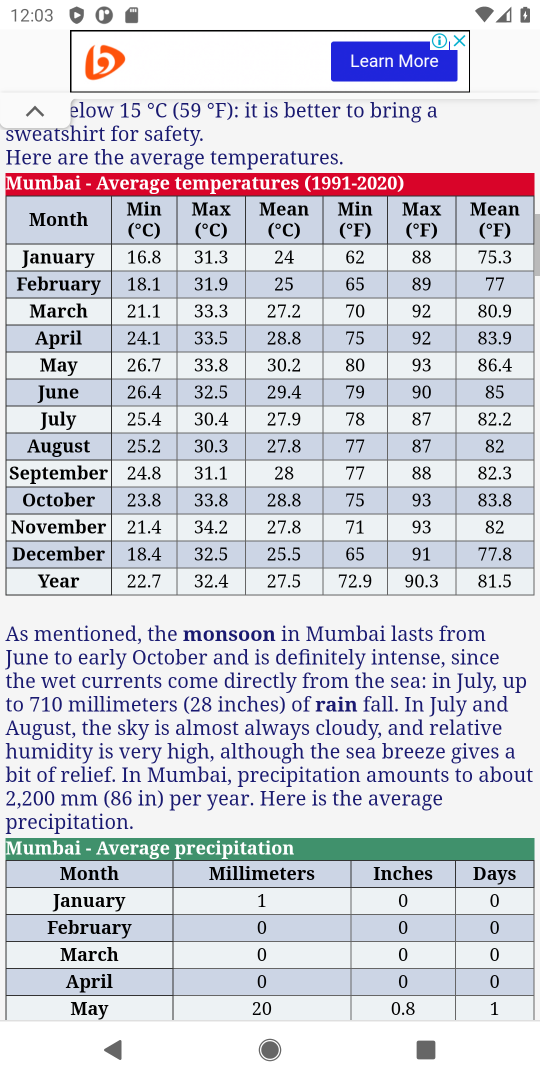
Step 45: drag from (430, 638) to (435, 189)
Your task to perform on an android device: What's the weather like in Mumbai? Image 46: 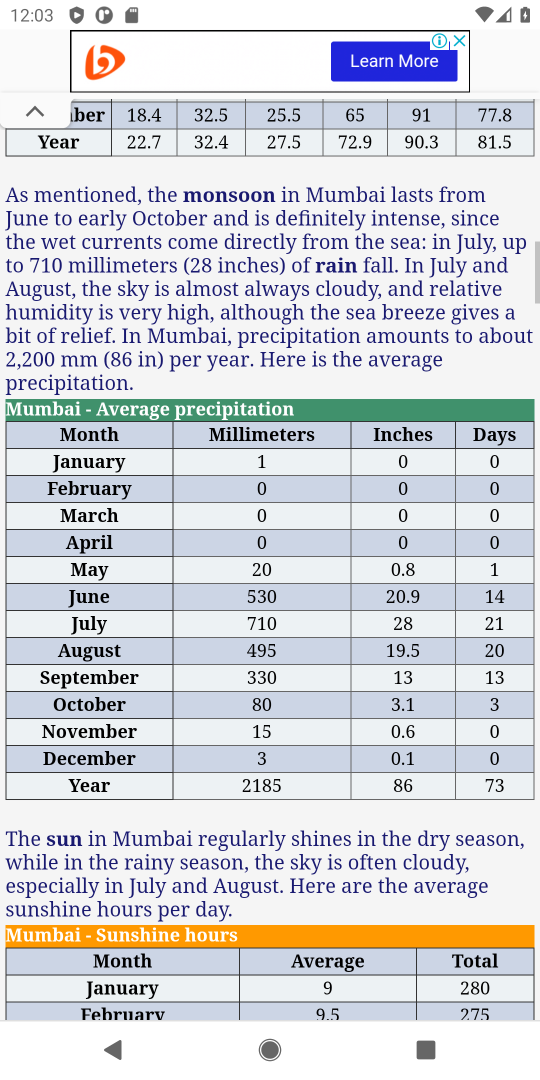
Step 46: drag from (436, 639) to (403, 219)
Your task to perform on an android device: What's the weather like in Mumbai? Image 47: 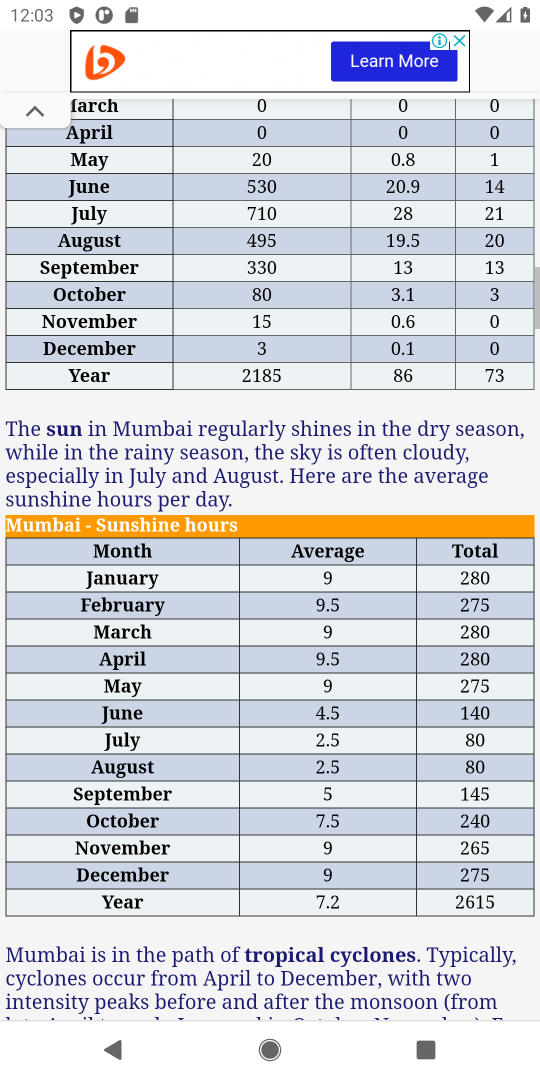
Step 47: drag from (462, 757) to (425, 203)
Your task to perform on an android device: What's the weather like in Mumbai? Image 48: 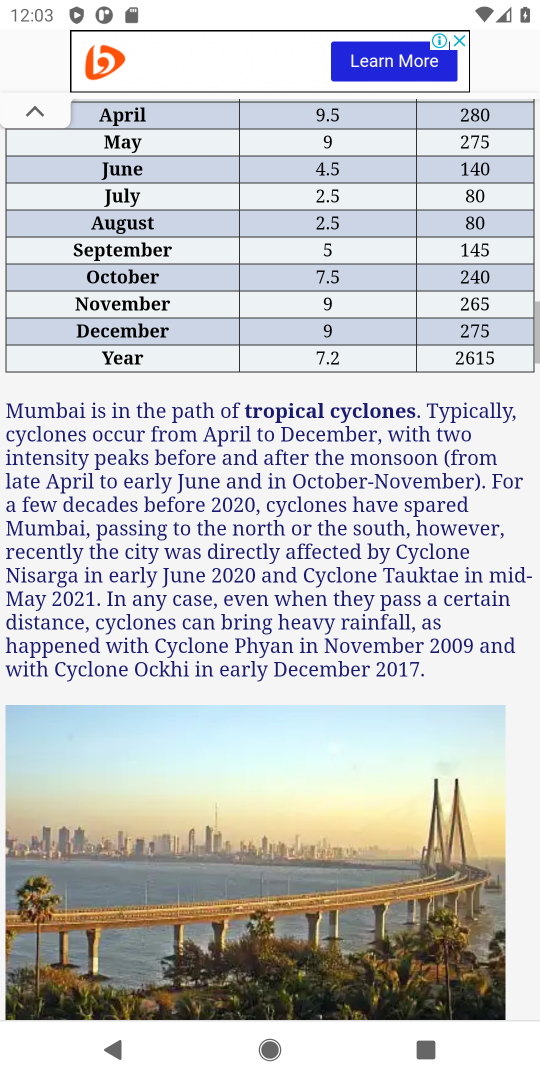
Step 48: drag from (451, 542) to (398, 199)
Your task to perform on an android device: What's the weather like in Mumbai? Image 49: 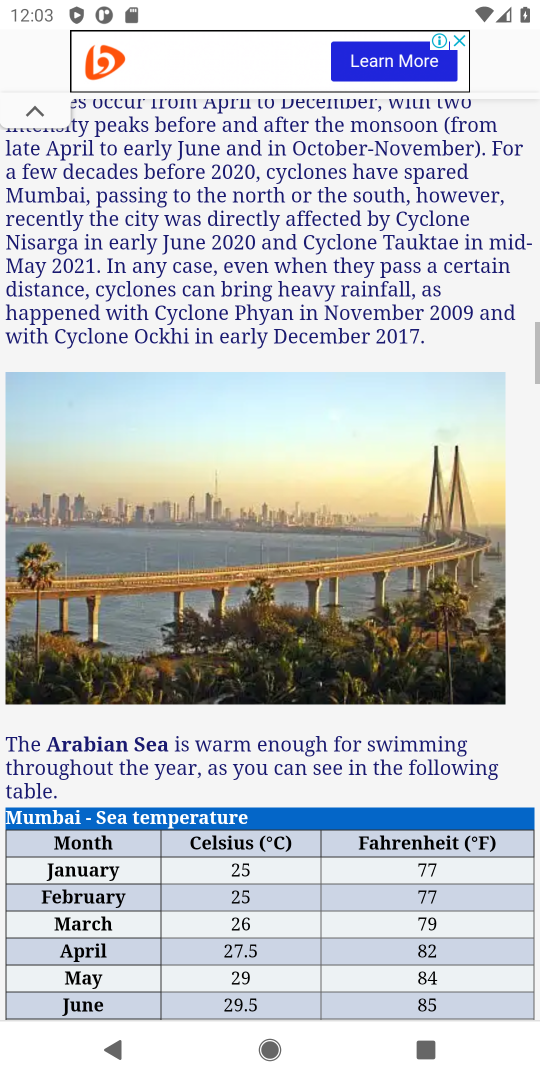
Step 49: drag from (392, 372) to (382, 184)
Your task to perform on an android device: What's the weather like in Mumbai? Image 50: 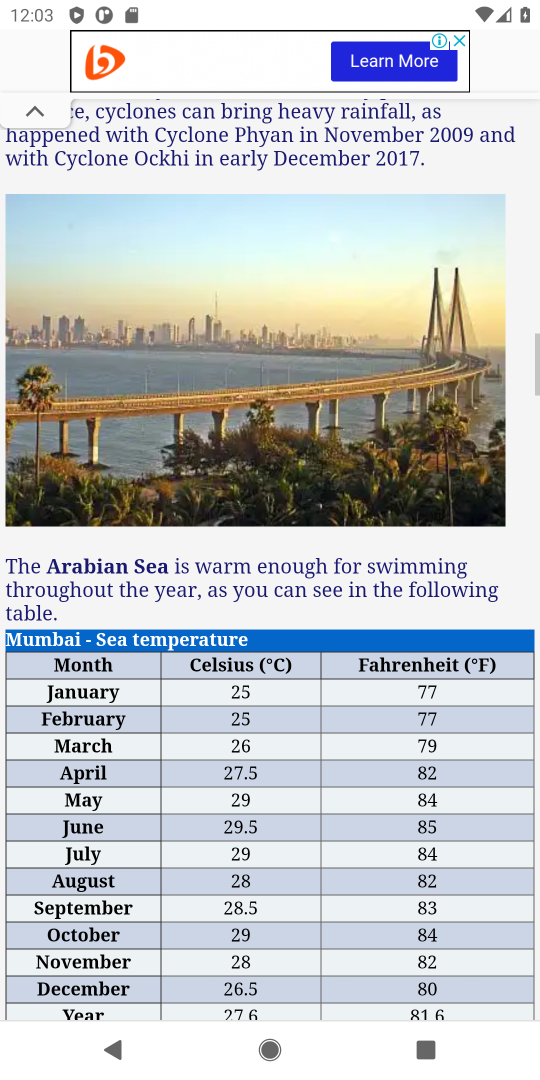
Step 50: drag from (388, 583) to (375, 257)
Your task to perform on an android device: What's the weather like in Mumbai? Image 51: 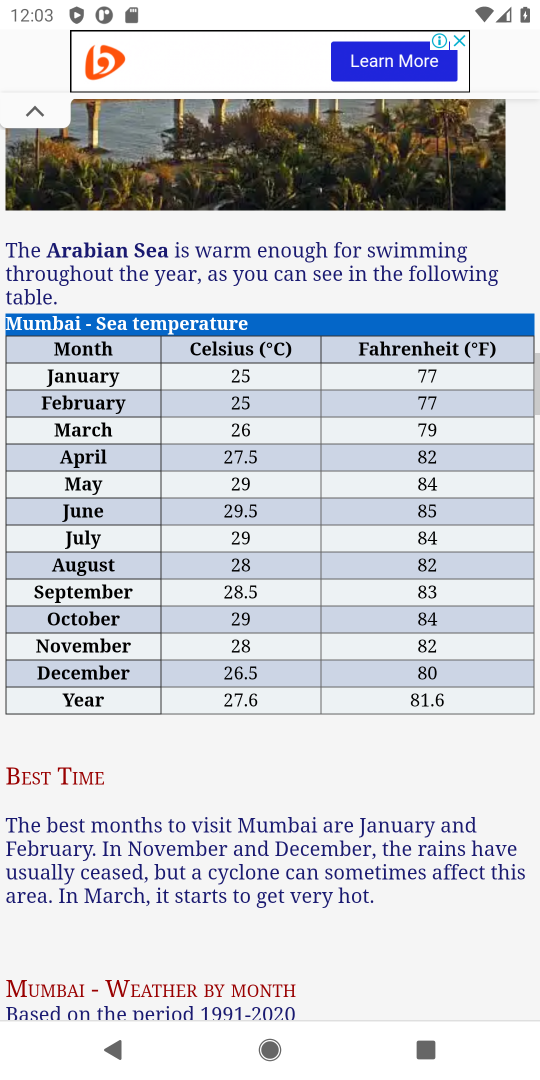
Step 51: drag from (396, 631) to (403, 312)
Your task to perform on an android device: What's the weather like in Mumbai? Image 52: 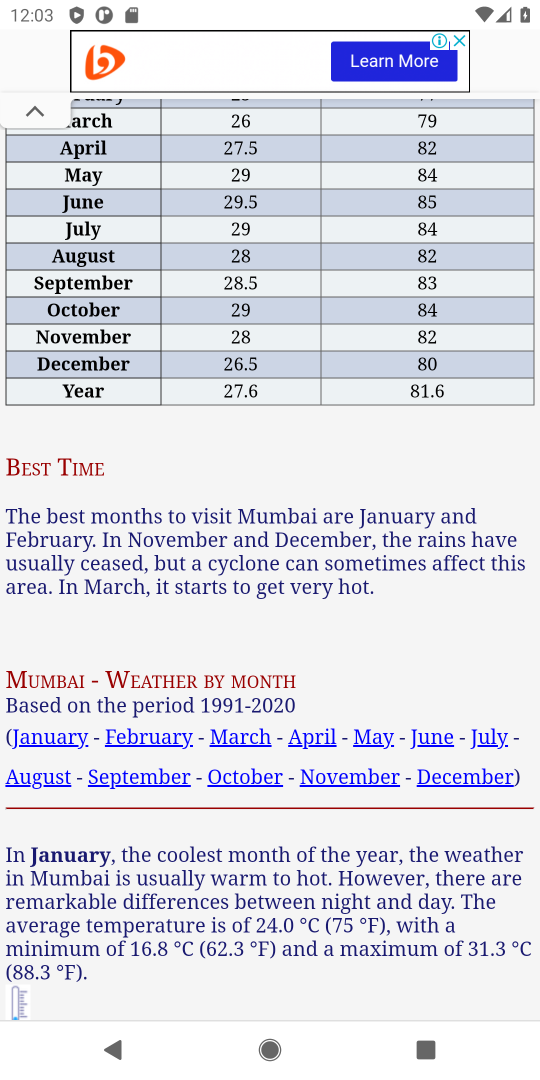
Step 52: drag from (405, 574) to (364, 255)
Your task to perform on an android device: What's the weather like in Mumbai? Image 53: 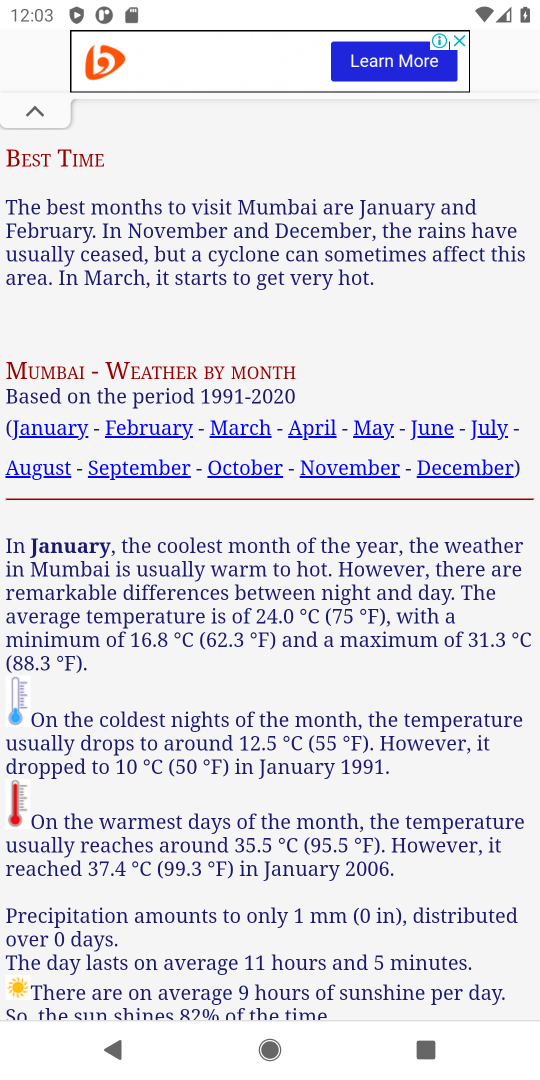
Step 53: drag from (456, 676) to (398, 333)
Your task to perform on an android device: What's the weather like in Mumbai? Image 54: 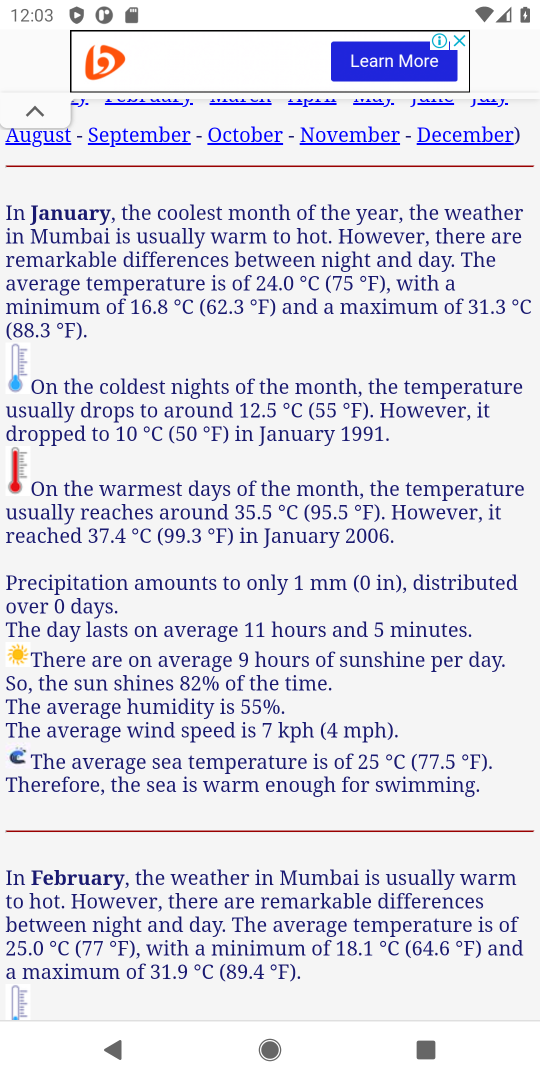
Step 54: press back button
Your task to perform on an android device: What's the weather like in Mumbai? Image 55: 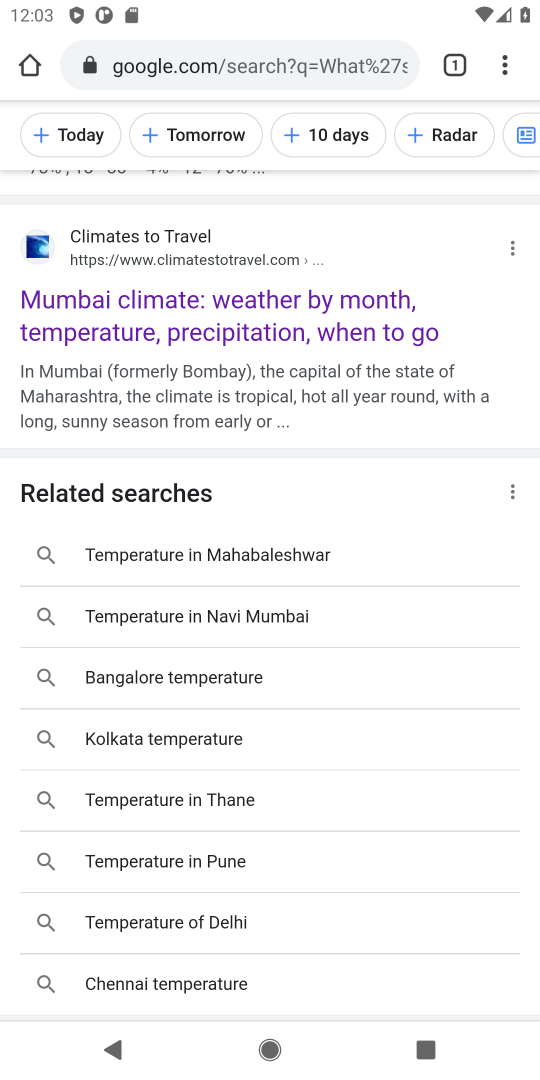
Step 55: drag from (356, 819) to (331, 213)
Your task to perform on an android device: What's the weather like in Mumbai? Image 56: 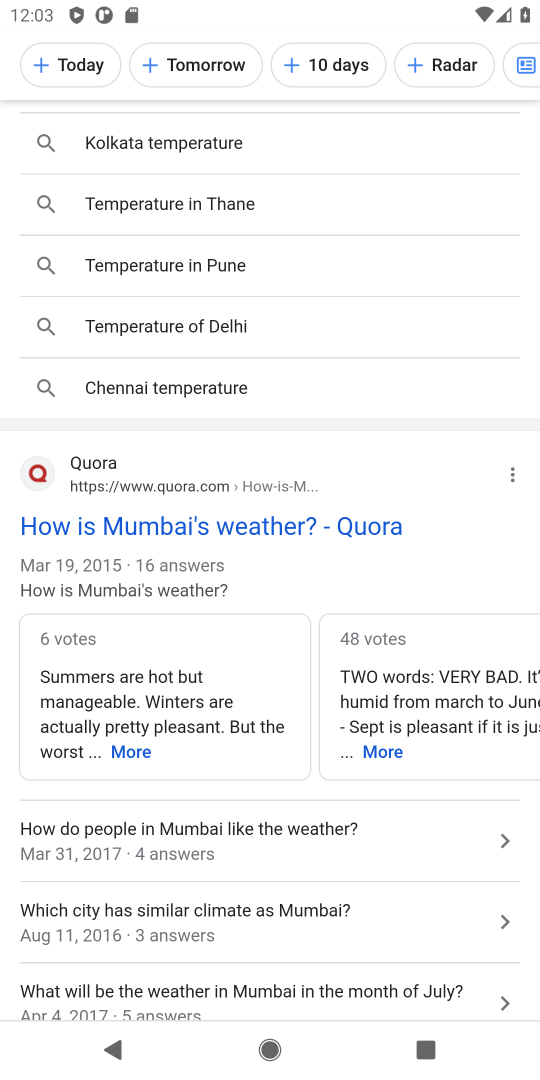
Step 56: drag from (299, 547) to (218, 53)
Your task to perform on an android device: What's the weather like in Mumbai? Image 57: 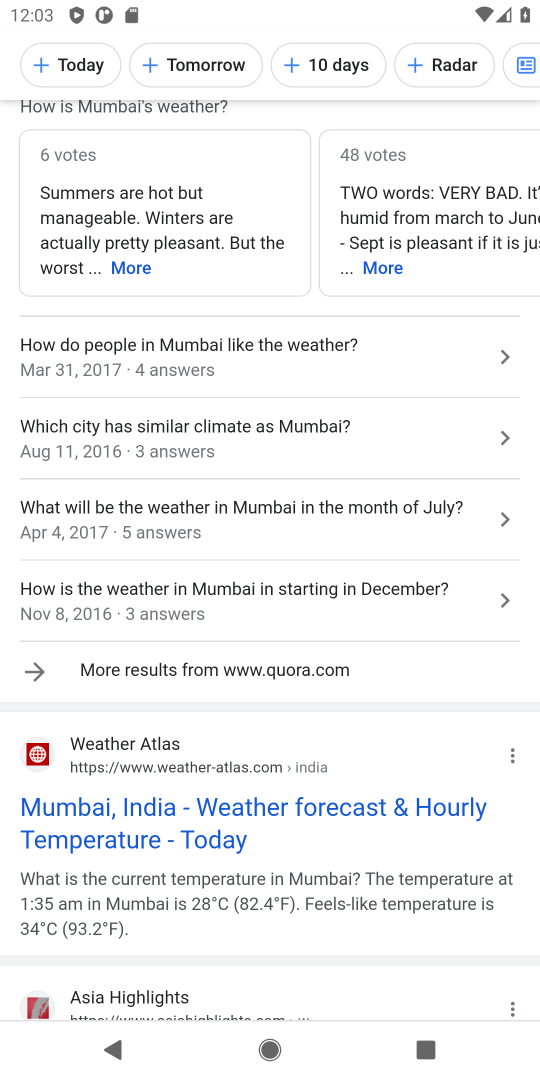
Step 57: click (172, 140)
Your task to perform on an android device: What's the weather like in Mumbai? Image 58: 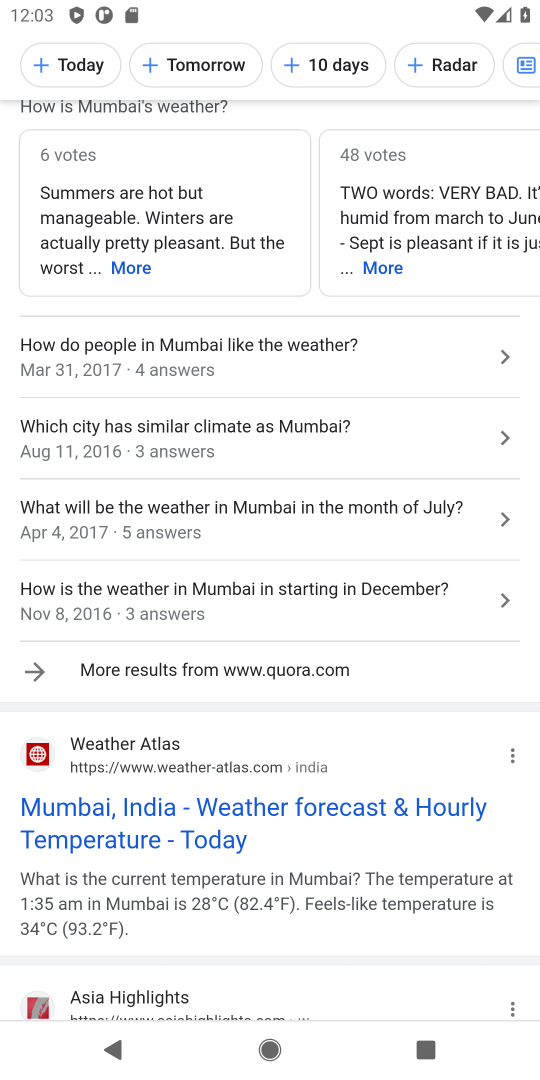
Step 58: task complete